Your task to perform on an android device: Open Chrome and go to the settings page Image 0: 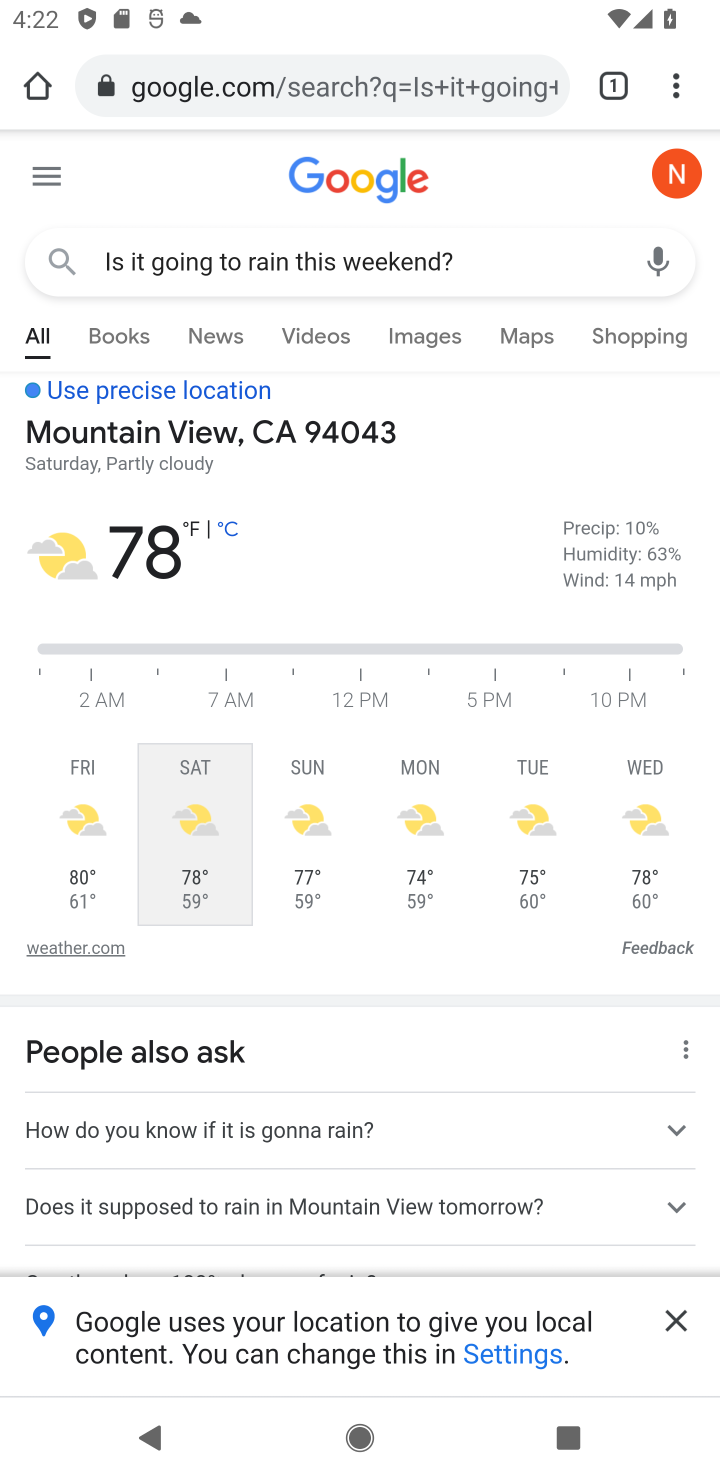
Step 0: click (426, 456)
Your task to perform on an android device: Open Chrome and go to the settings page Image 1: 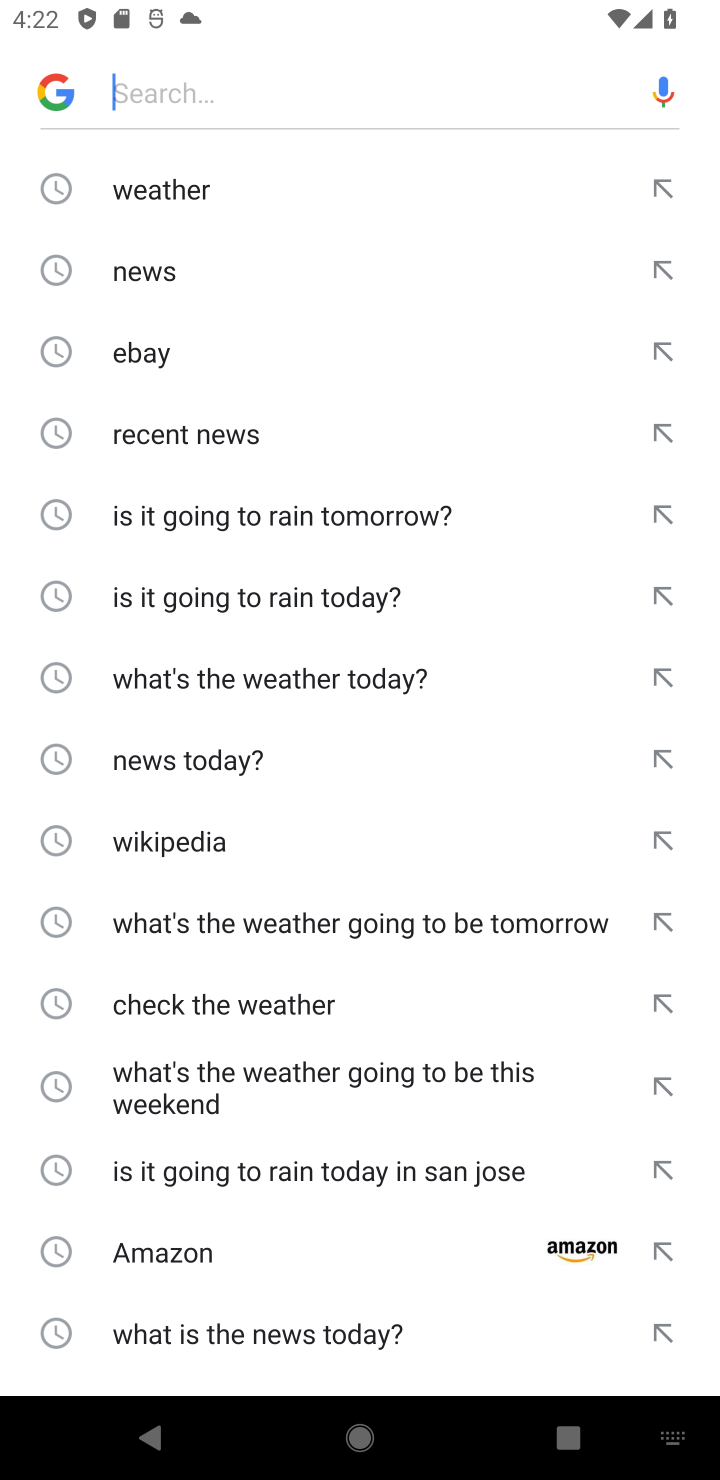
Step 1: press home button
Your task to perform on an android device: Open Chrome and go to the settings page Image 2: 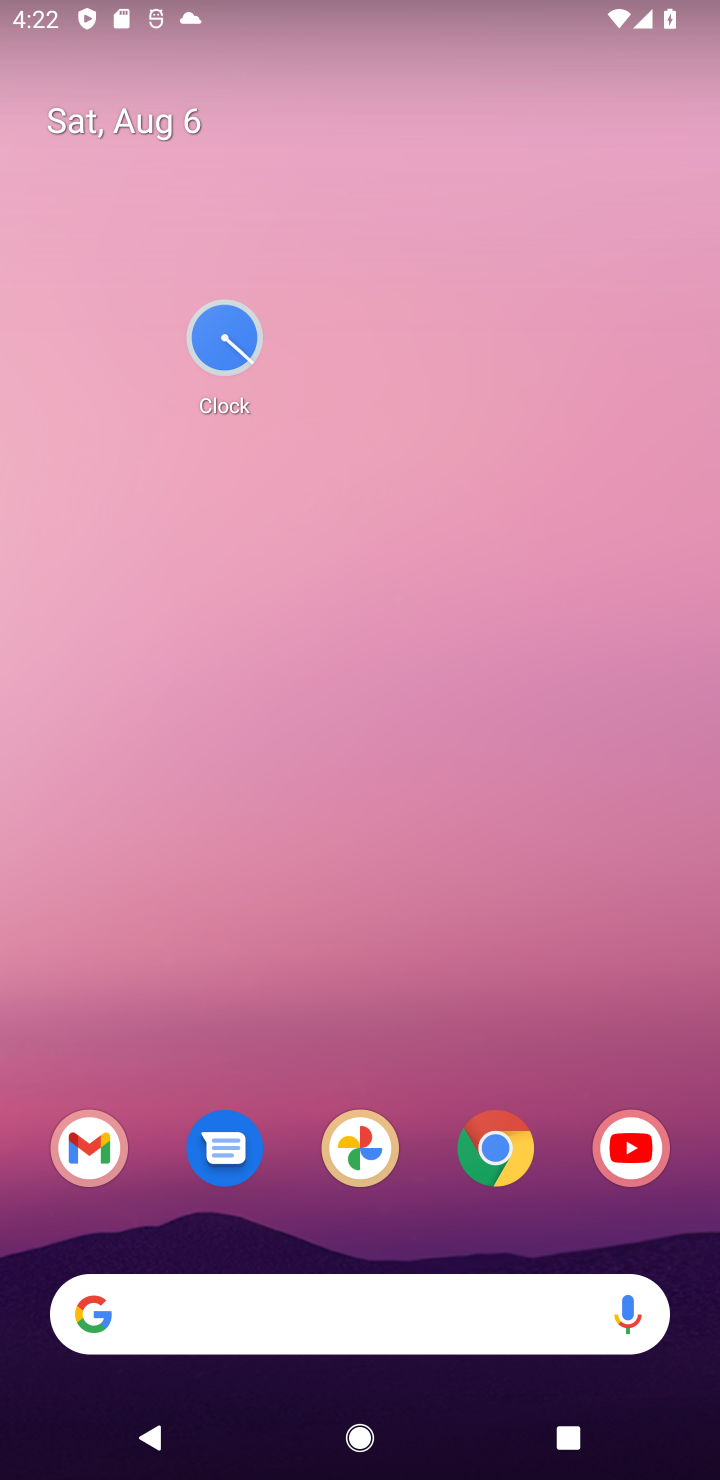
Step 2: click (492, 1153)
Your task to perform on an android device: Open Chrome and go to the settings page Image 3: 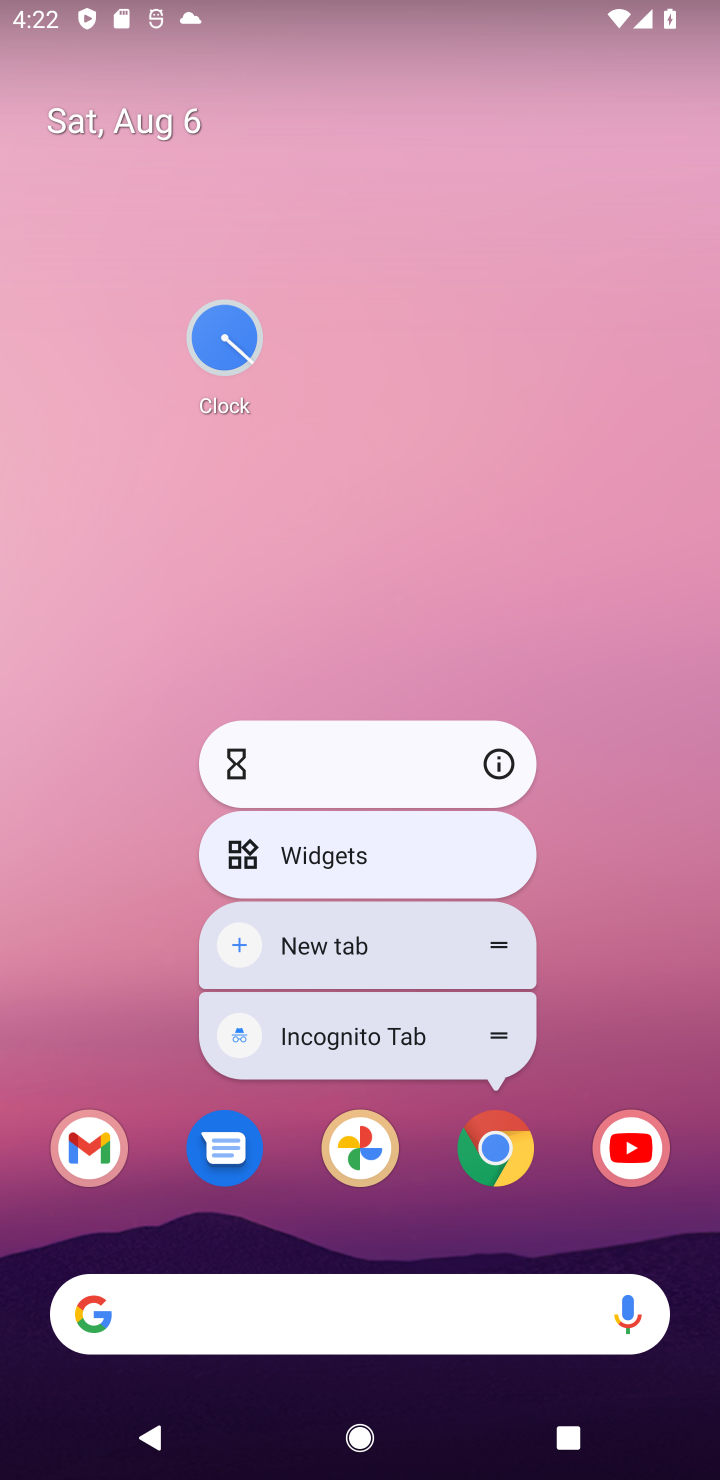
Step 3: click (495, 737)
Your task to perform on an android device: Open Chrome and go to the settings page Image 4: 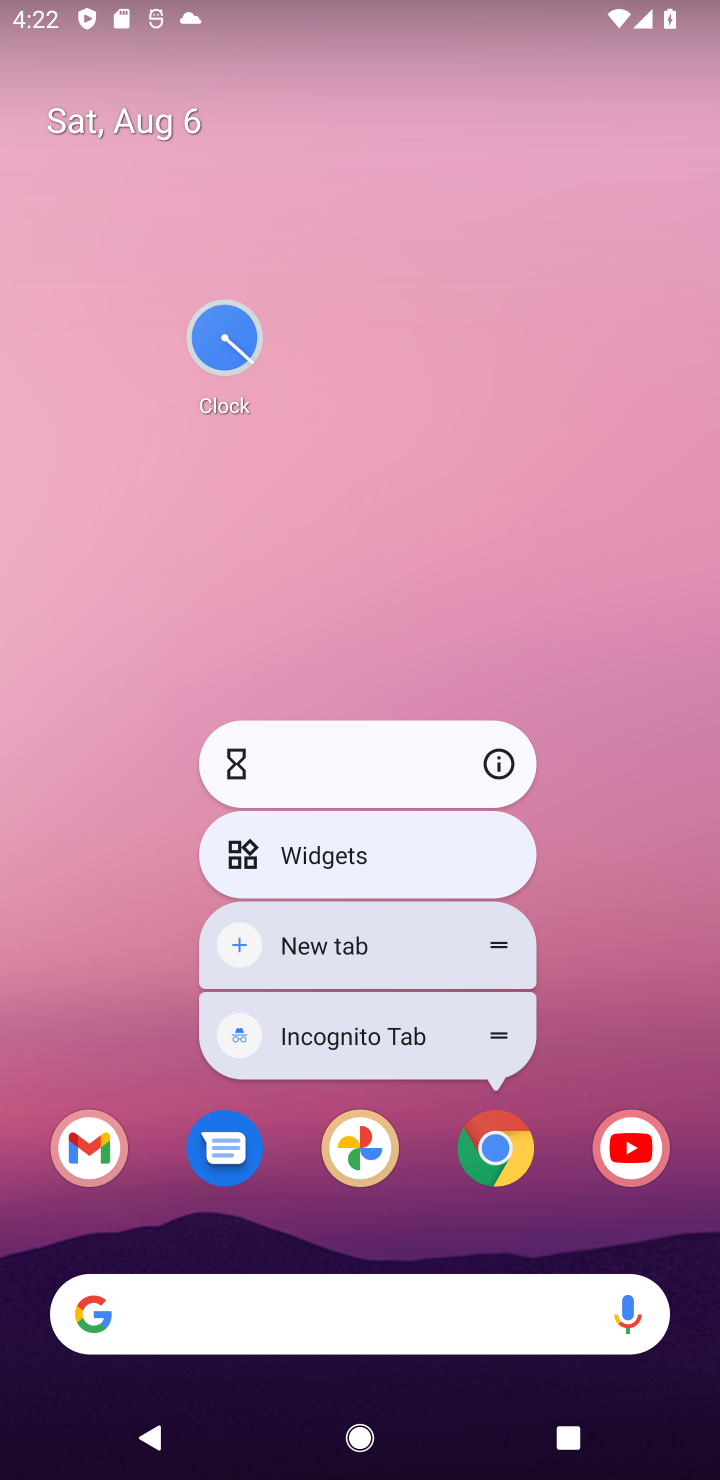
Step 4: click (498, 748)
Your task to perform on an android device: Open Chrome and go to the settings page Image 5: 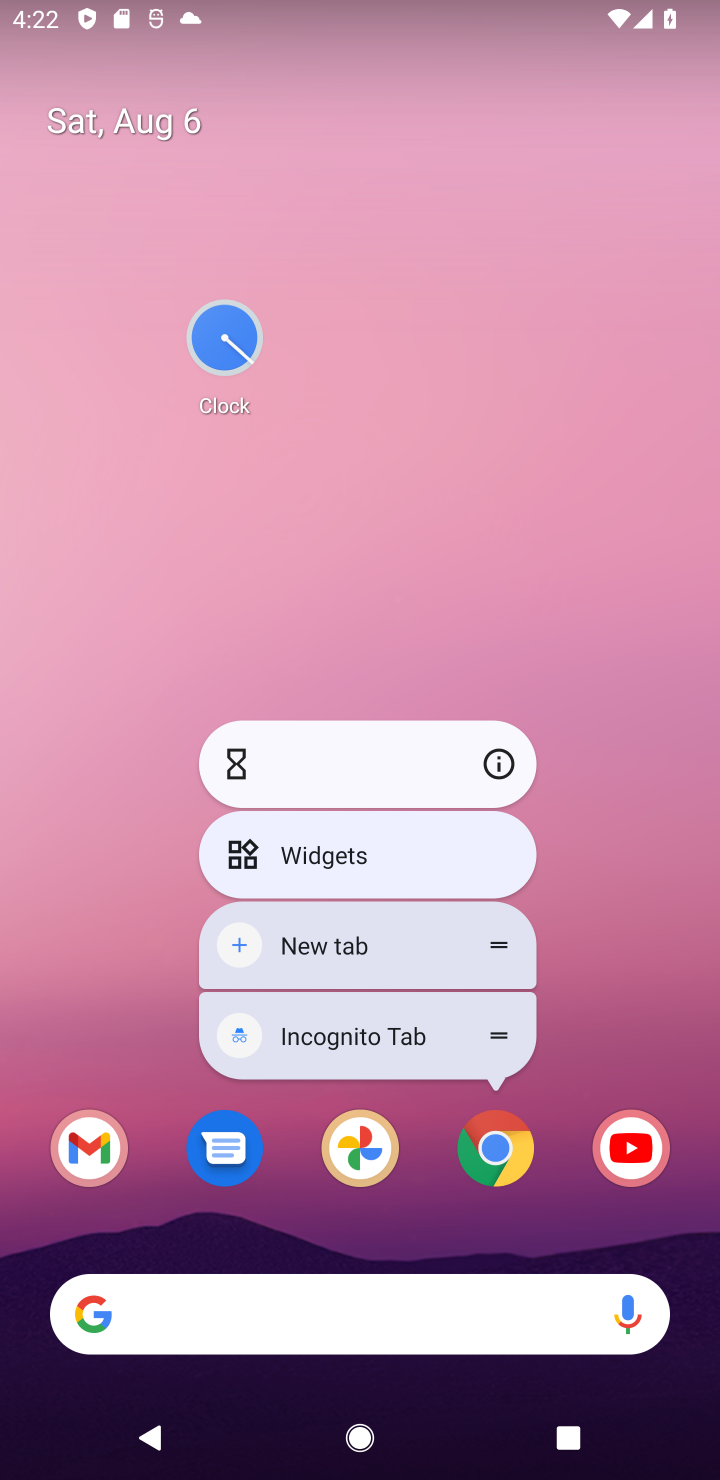
Step 5: click (511, 766)
Your task to perform on an android device: Open Chrome and go to the settings page Image 6: 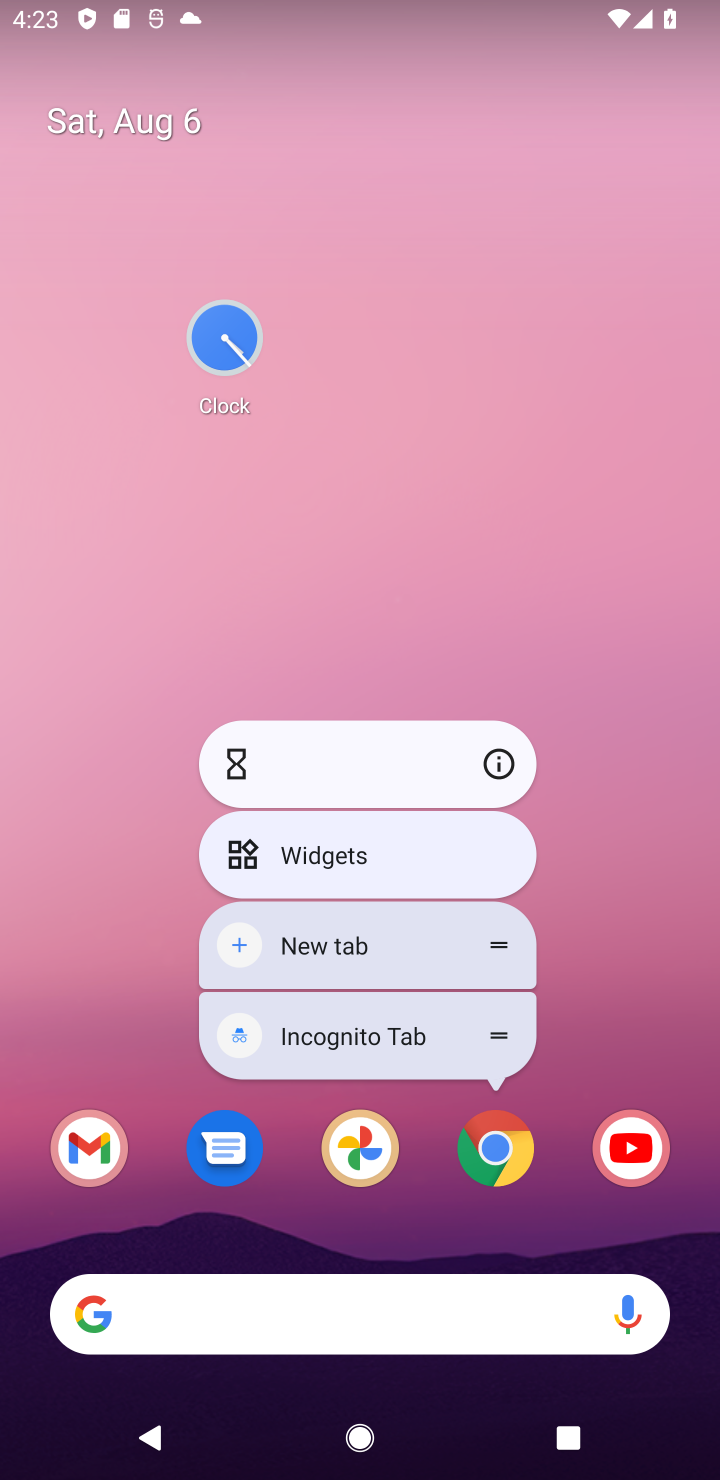
Step 6: click (491, 756)
Your task to perform on an android device: Open Chrome and go to the settings page Image 7: 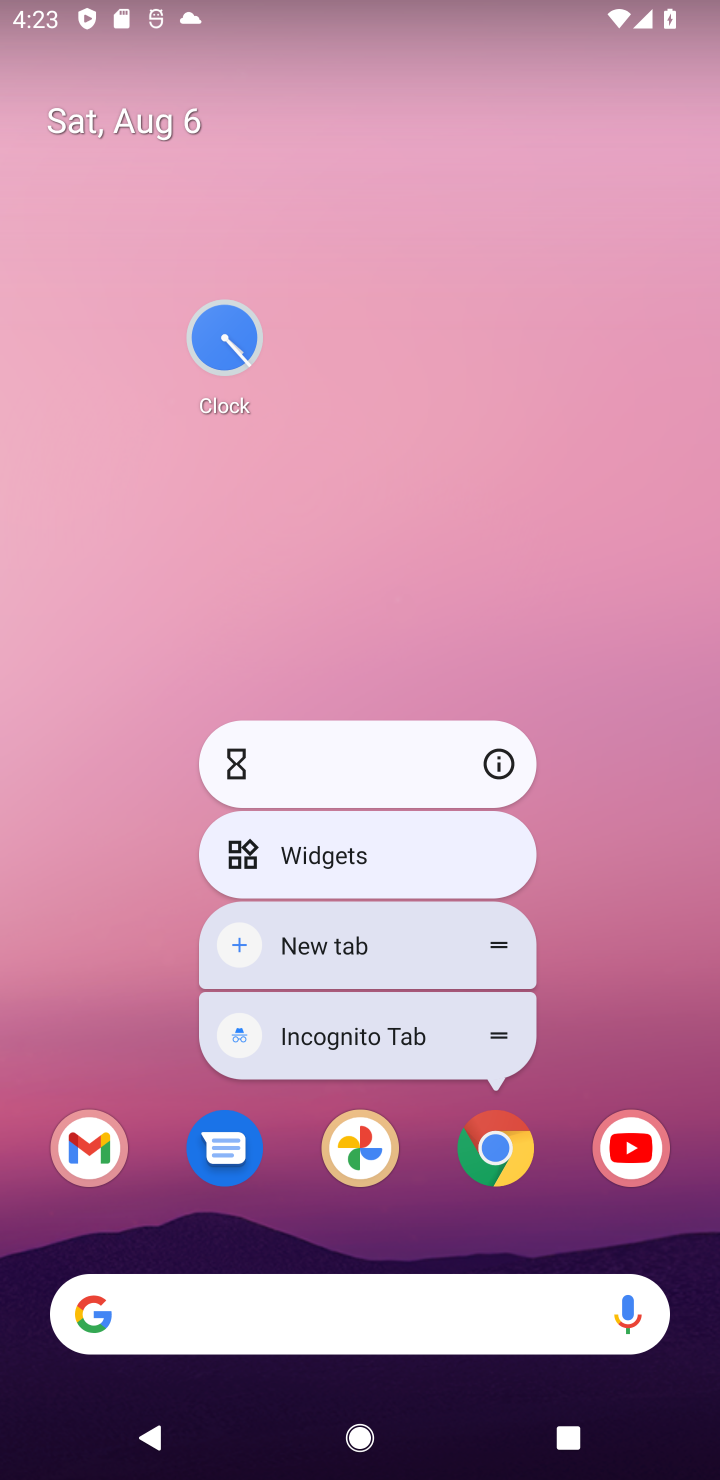
Step 7: click (493, 753)
Your task to perform on an android device: Open Chrome and go to the settings page Image 8: 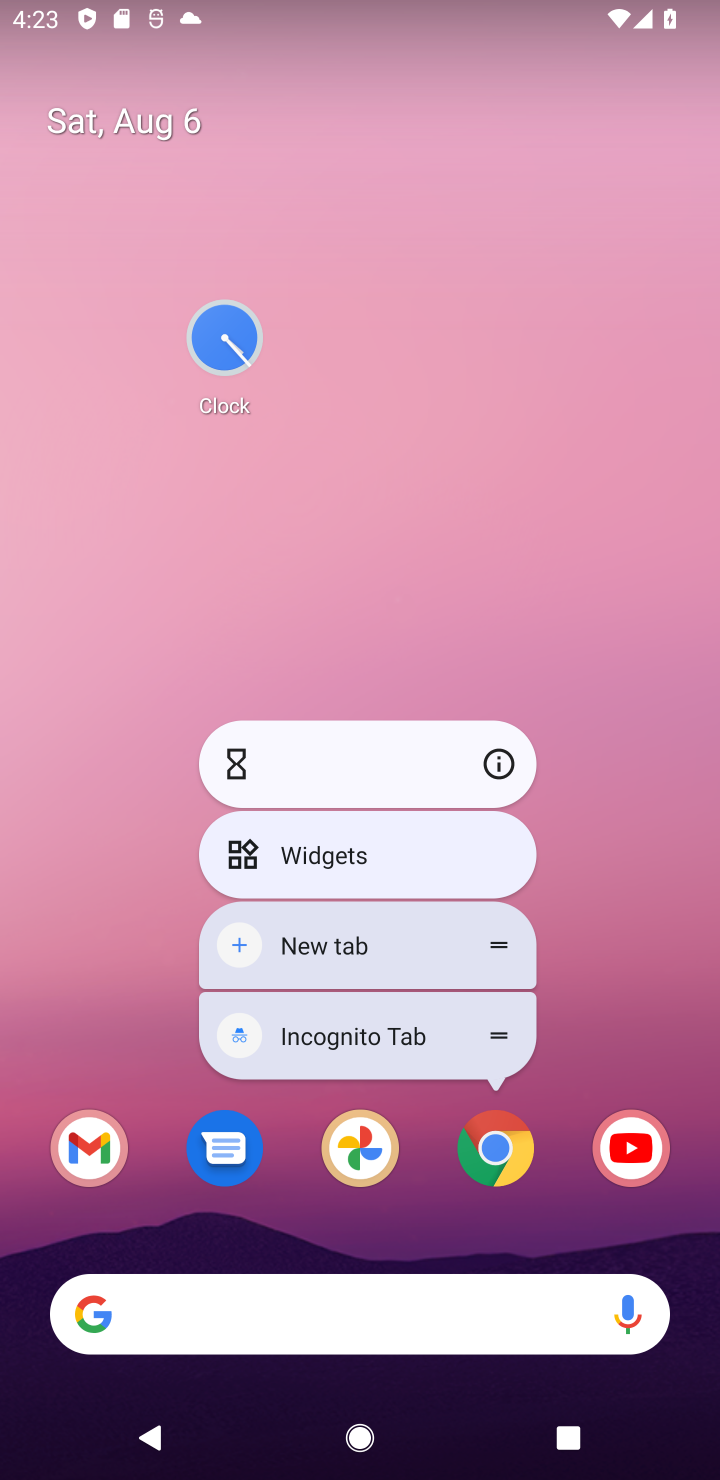
Step 8: click (481, 764)
Your task to perform on an android device: Open Chrome and go to the settings page Image 9: 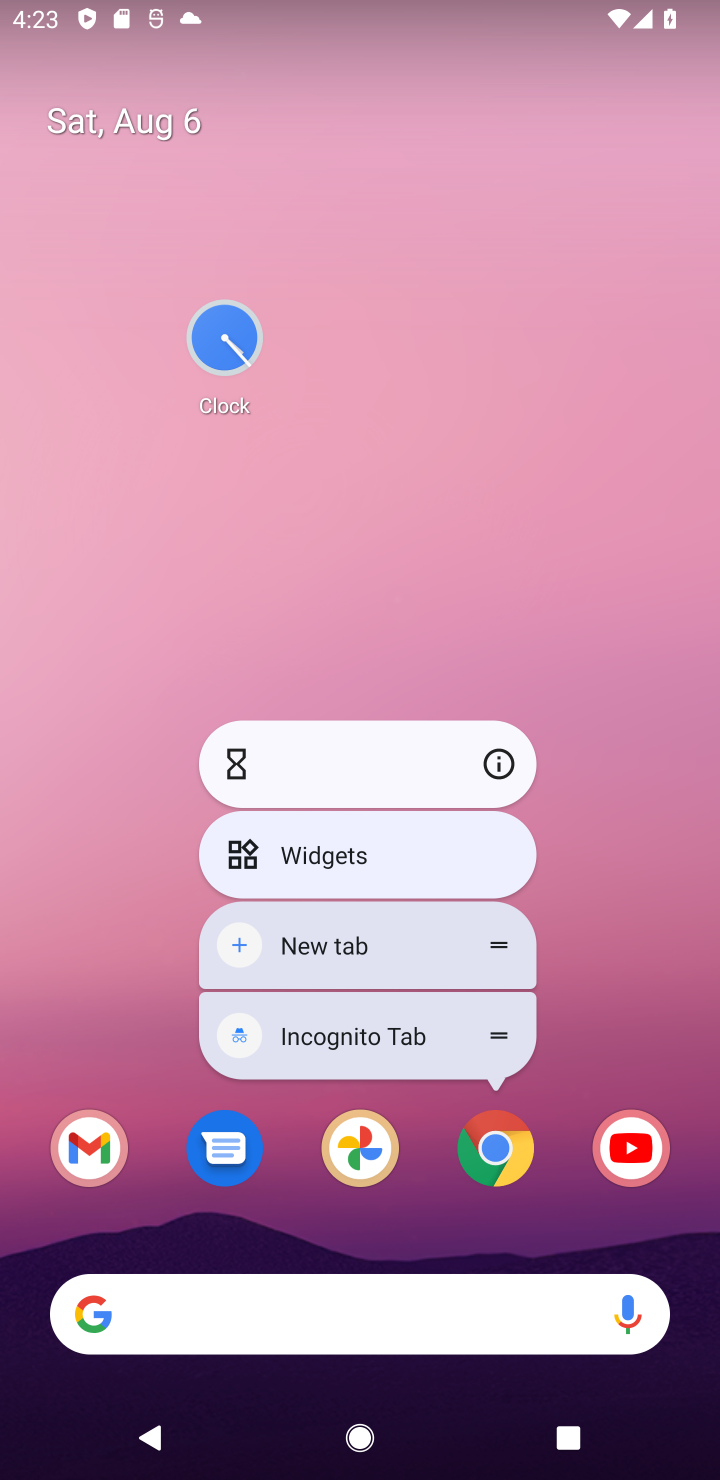
Step 9: click (496, 754)
Your task to perform on an android device: Open Chrome and go to the settings page Image 10: 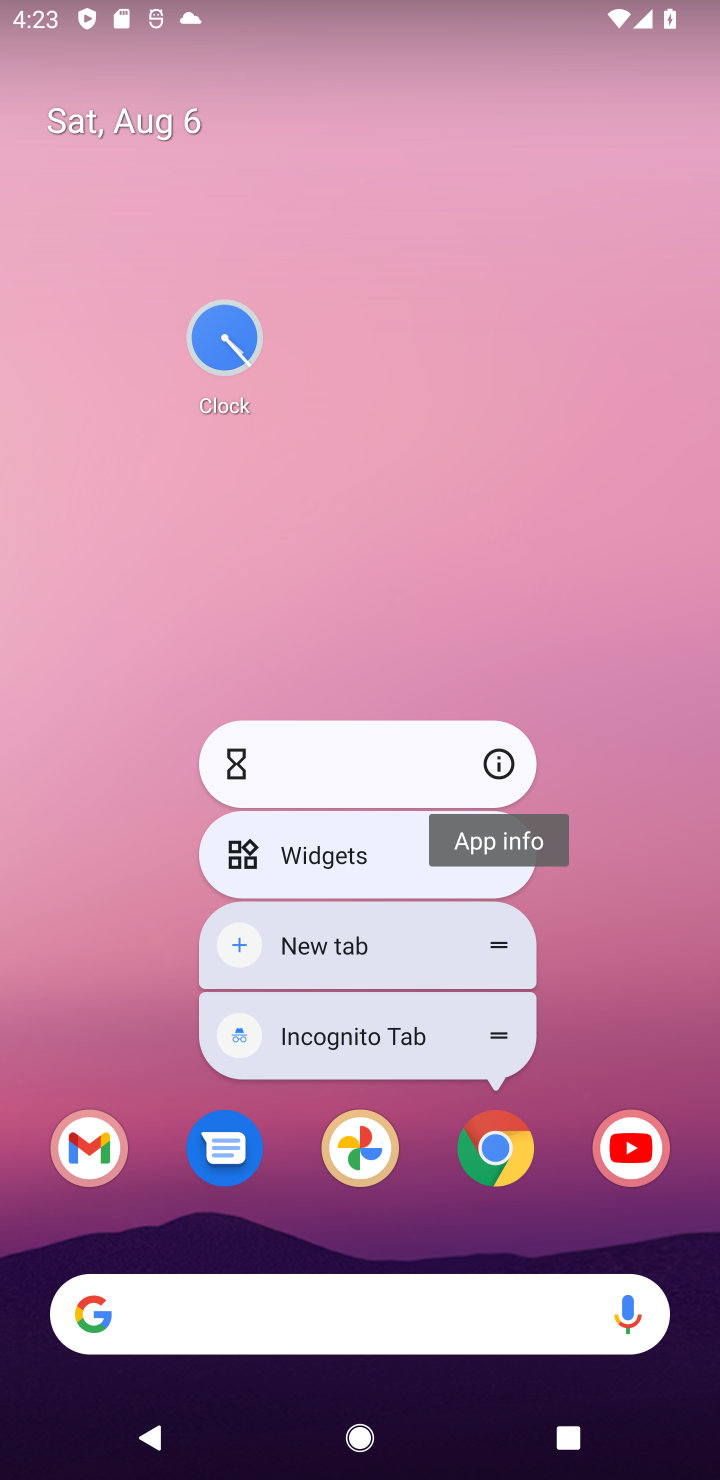
Step 10: click (490, 1141)
Your task to perform on an android device: Open Chrome and go to the settings page Image 11: 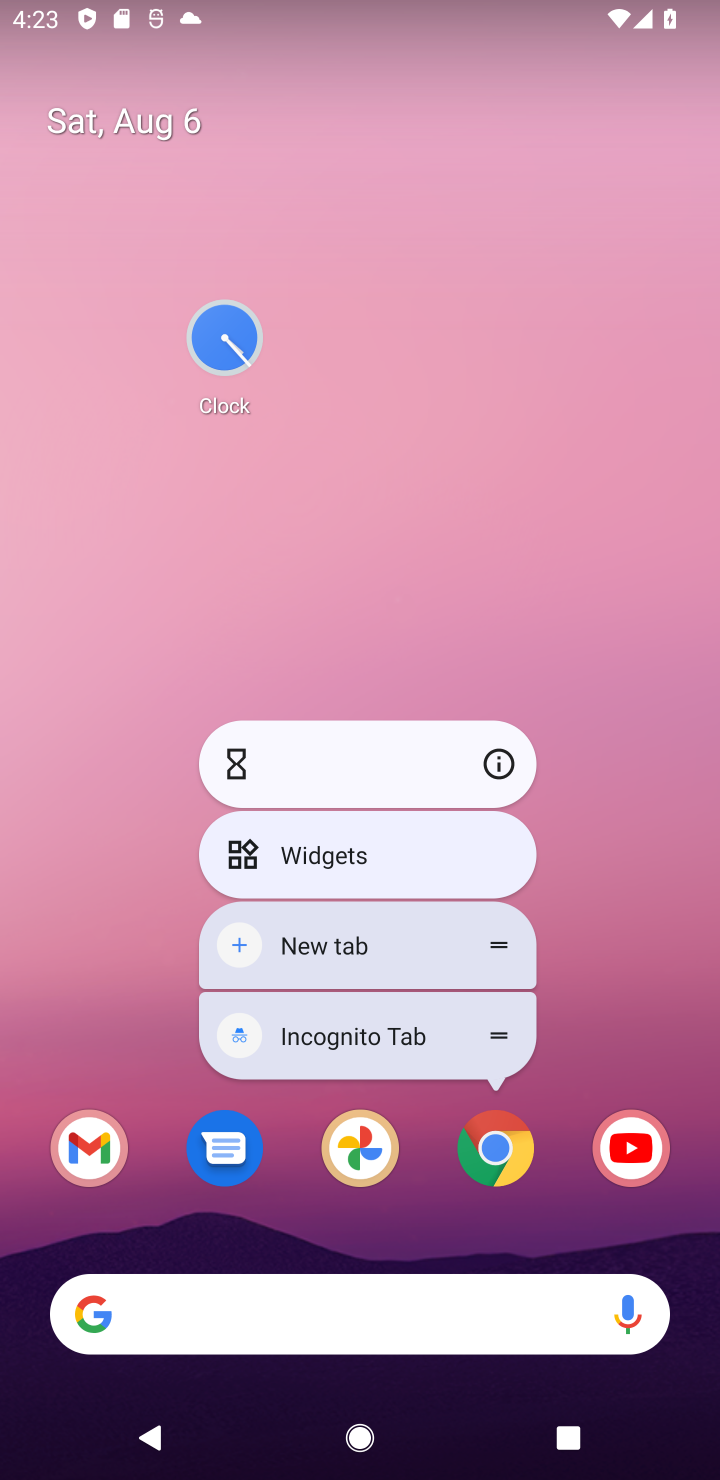
Step 11: click (494, 777)
Your task to perform on an android device: Open Chrome and go to the settings page Image 12: 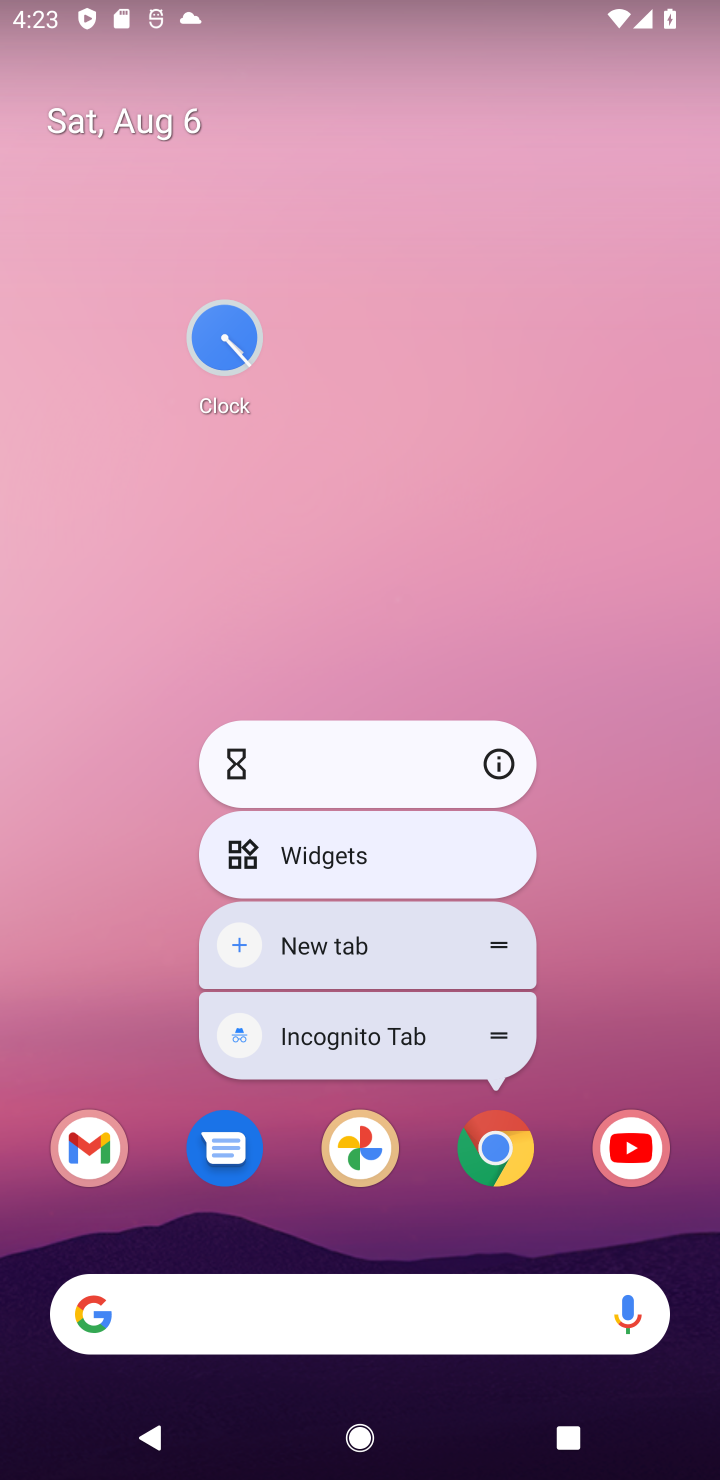
Step 12: click (497, 773)
Your task to perform on an android device: Open Chrome and go to the settings page Image 13: 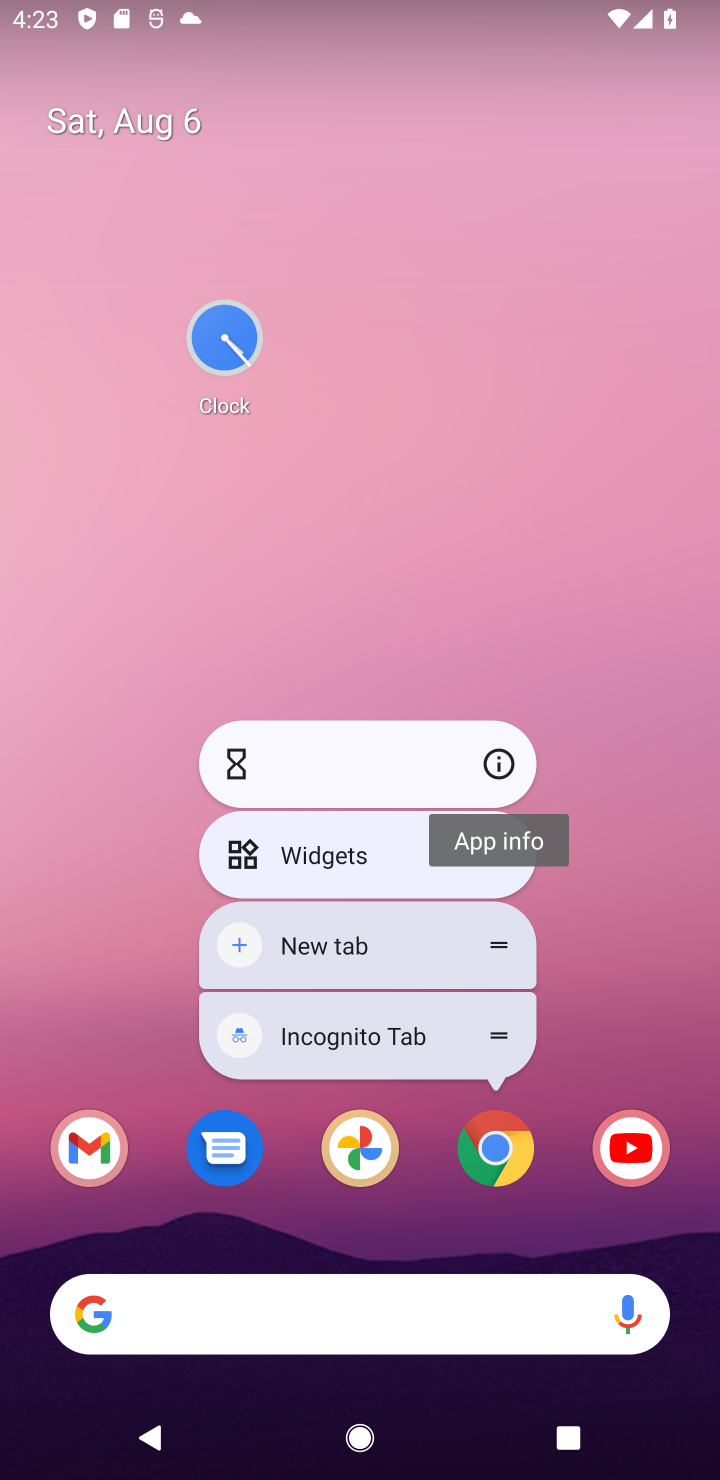
Step 13: click (486, 768)
Your task to perform on an android device: Open Chrome and go to the settings page Image 14: 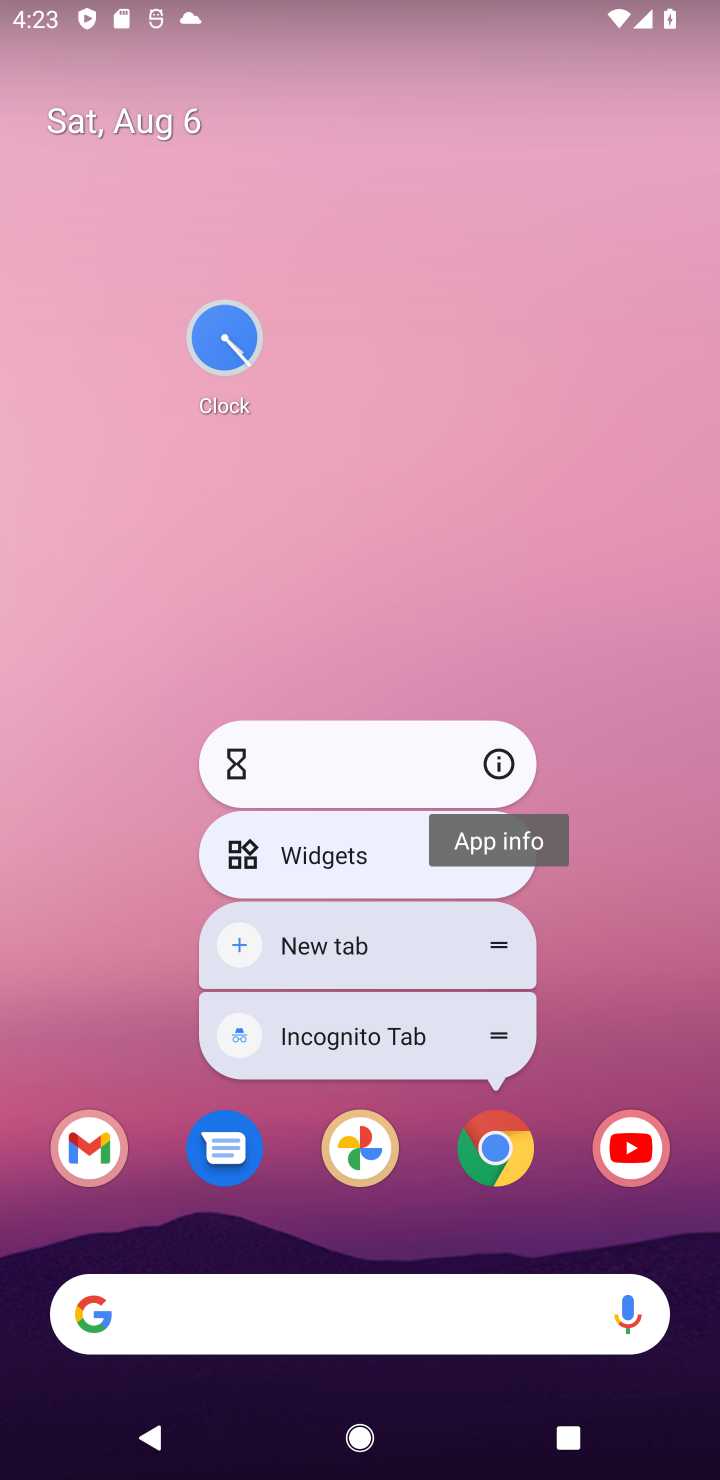
Step 14: click (486, 768)
Your task to perform on an android device: Open Chrome and go to the settings page Image 15: 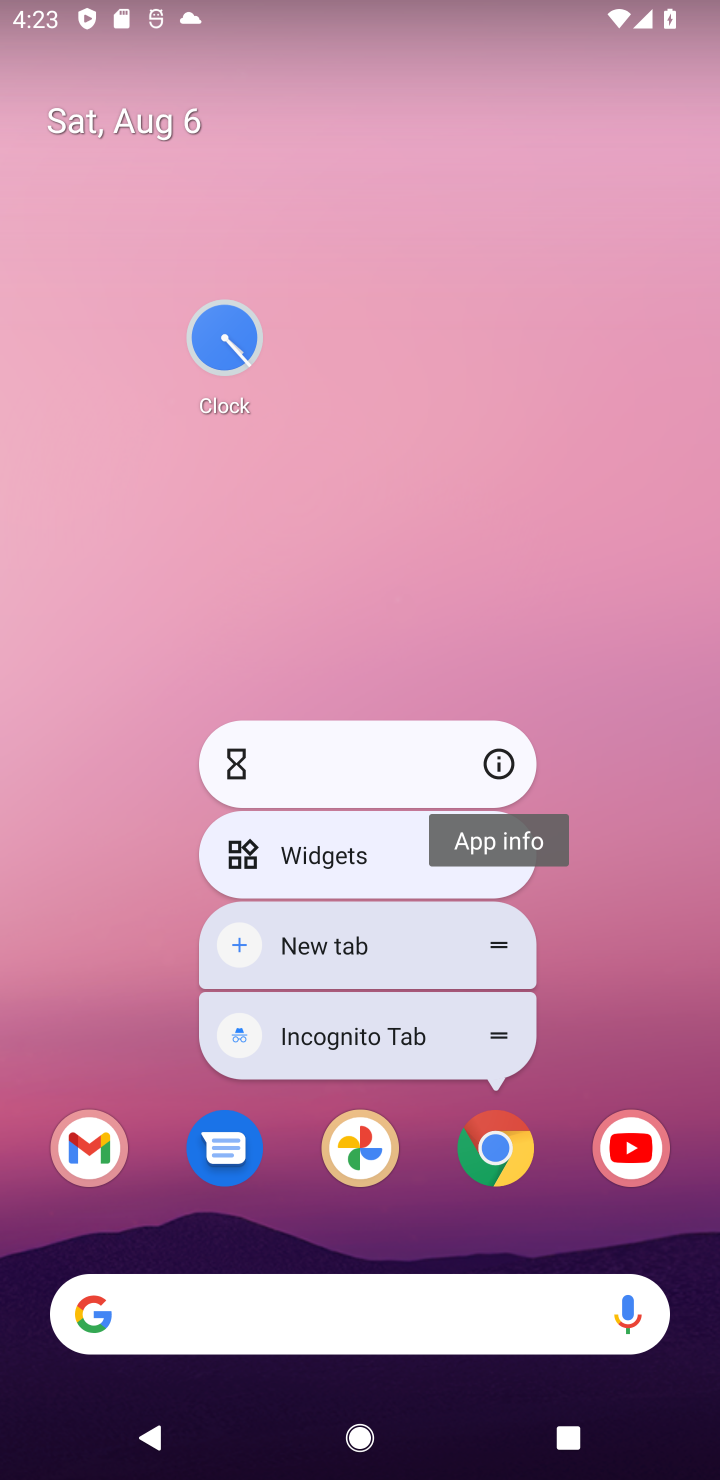
Step 15: click (492, 783)
Your task to perform on an android device: Open Chrome and go to the settings page Image 16: 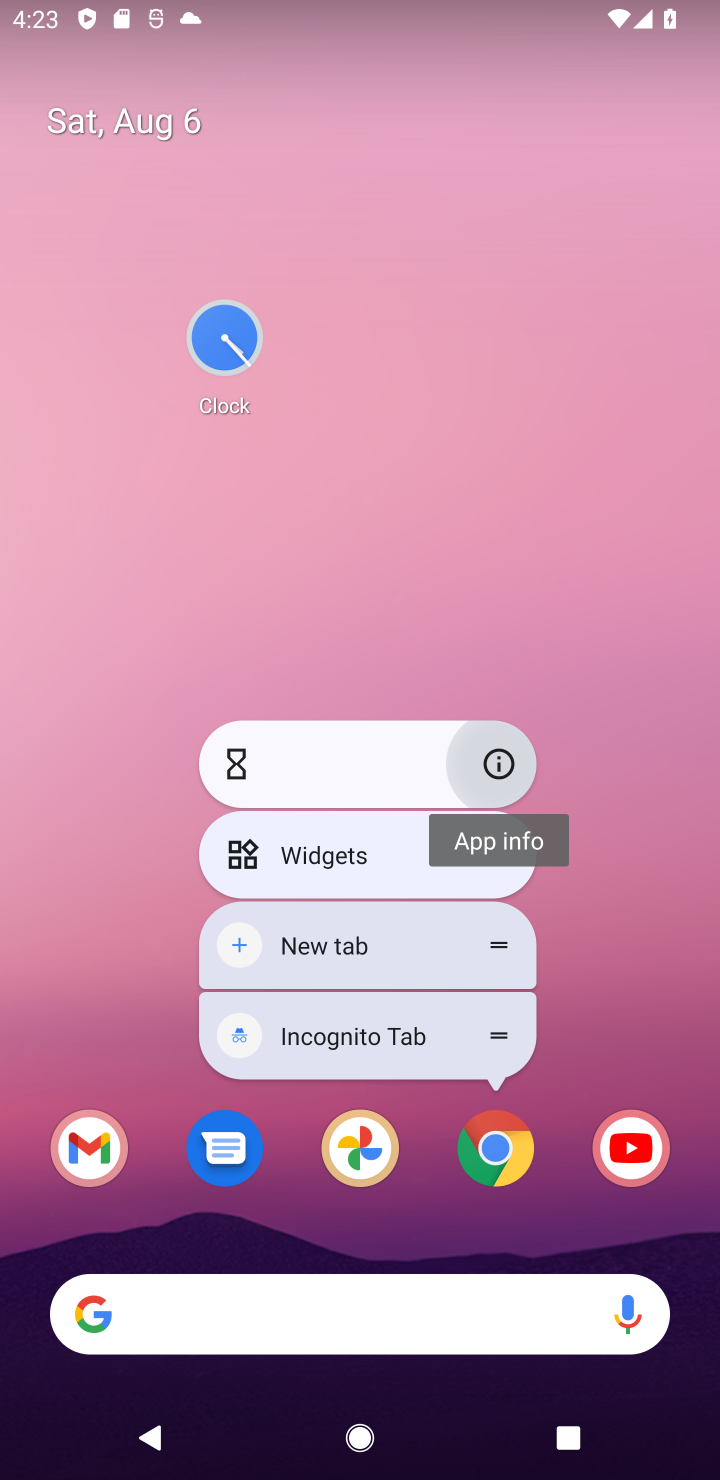
Step 16: click (488, 763)
Your task to perform on an android device: Open Chrome and go to the settings page Image 17: 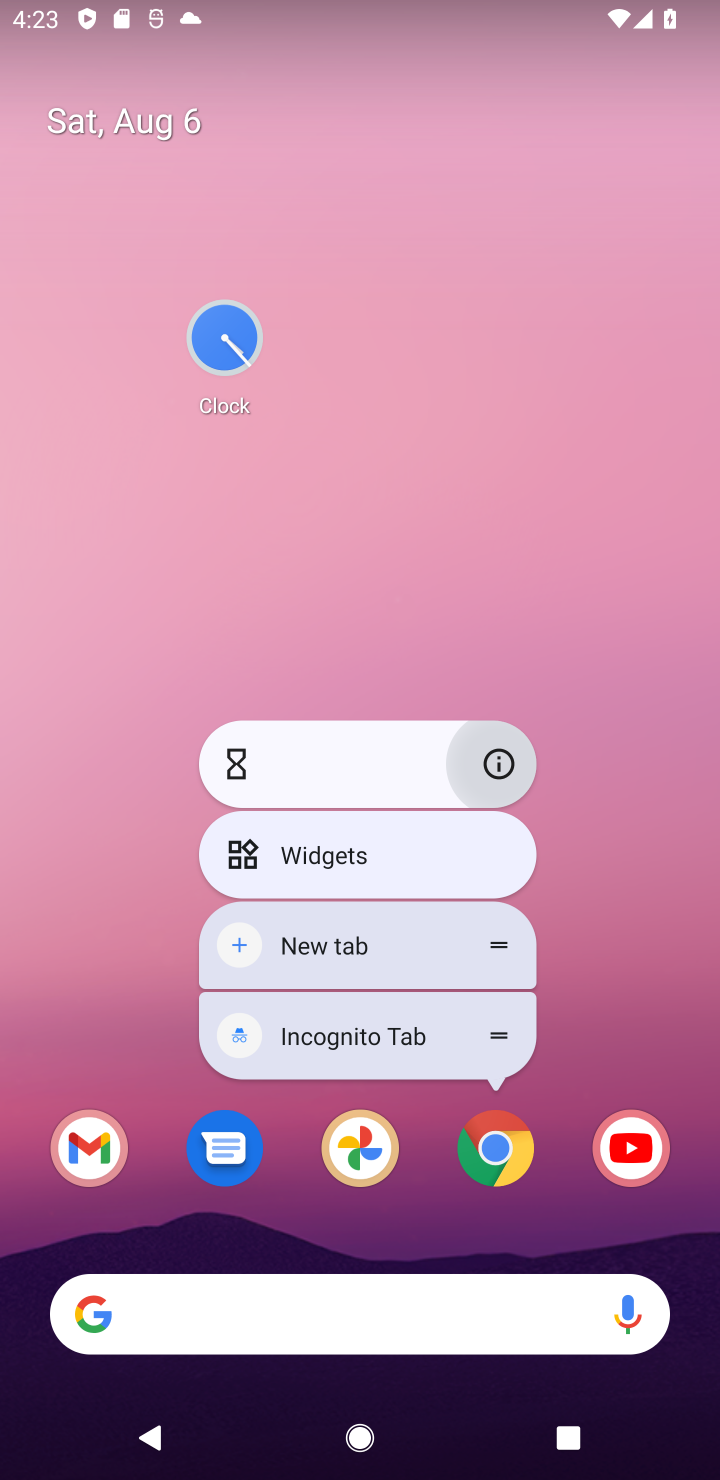
Step 17: click (488, 763)
Your task to perform on an android device: Open Chrome and go to the settings page Image 18: 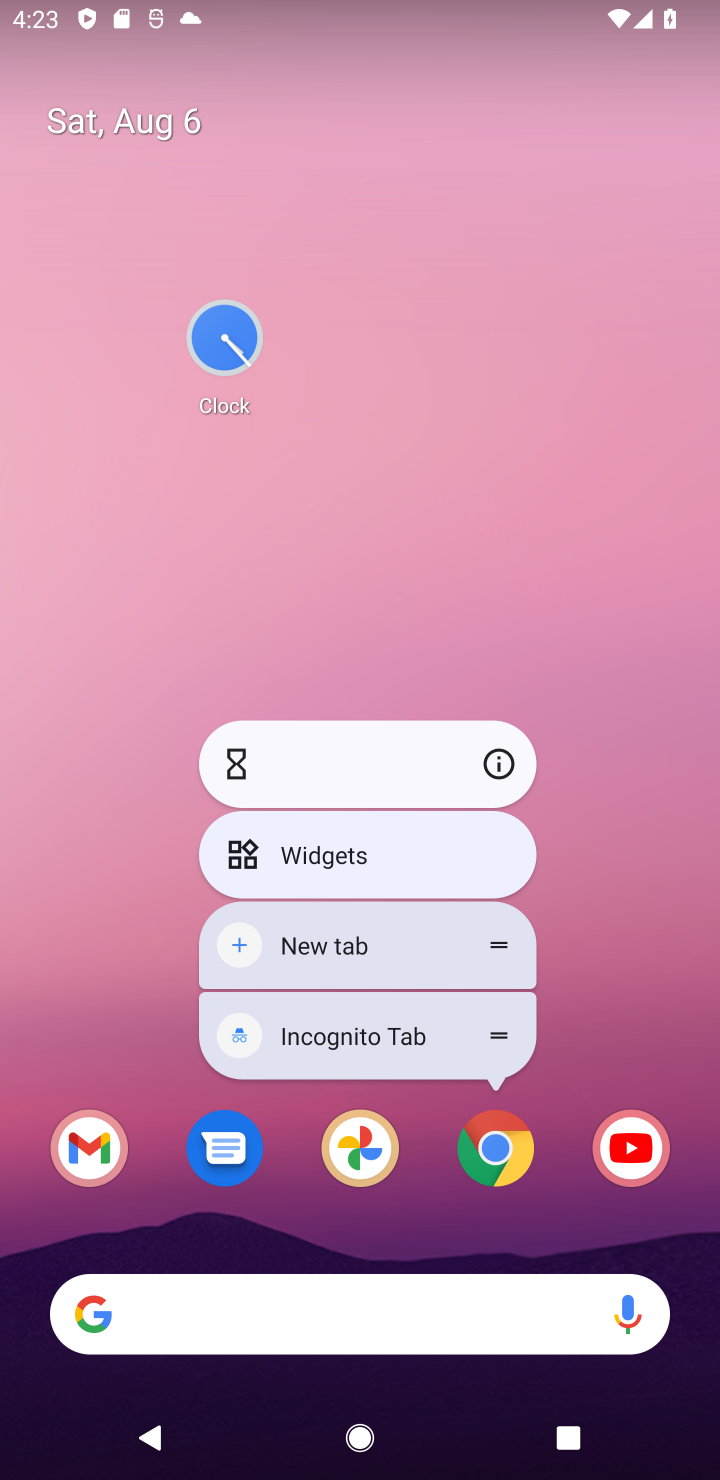
Step 18: click (492, 1141)
Your task to perform on an android device: Open Chrome and go to the settings page Image 19: 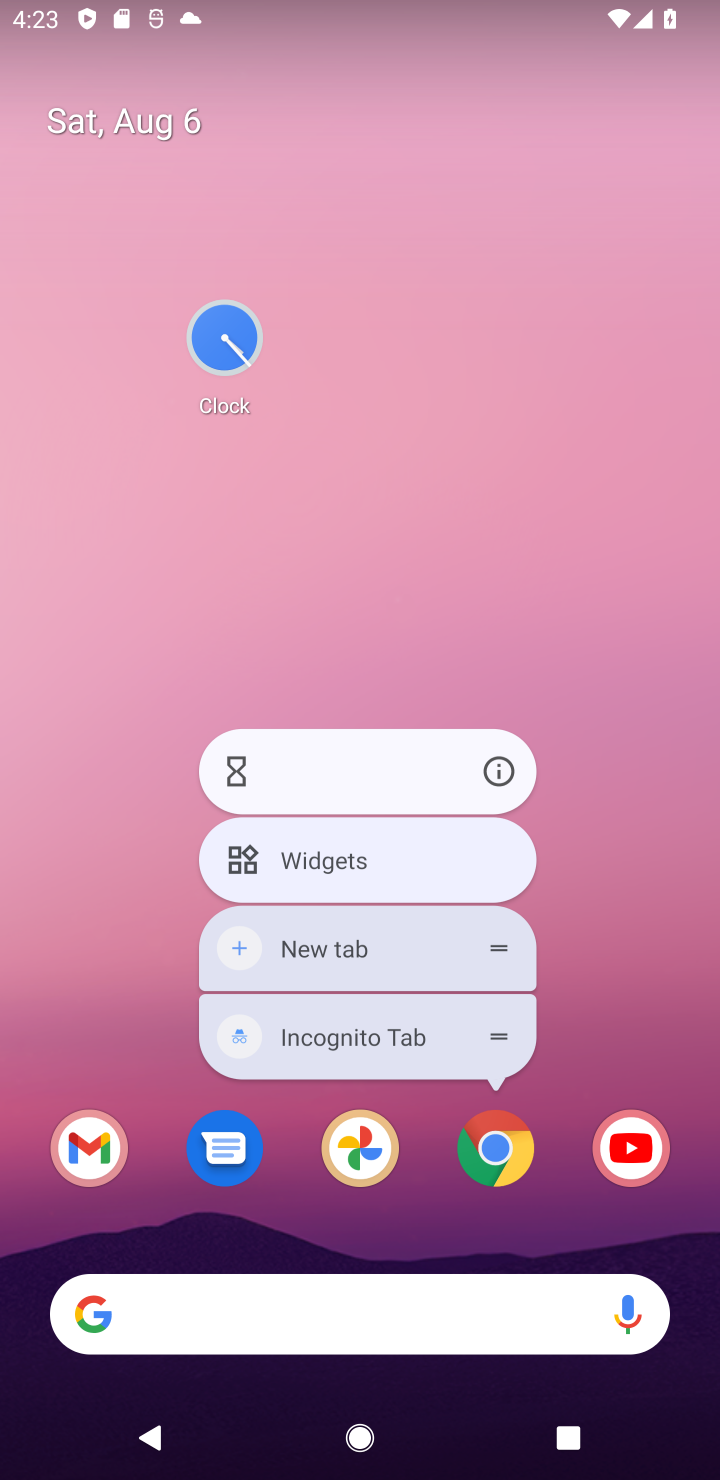
Step 19: click (492, 1141)
Your task to perform on an android device: Open Chrome and go to the settings page Image 20: 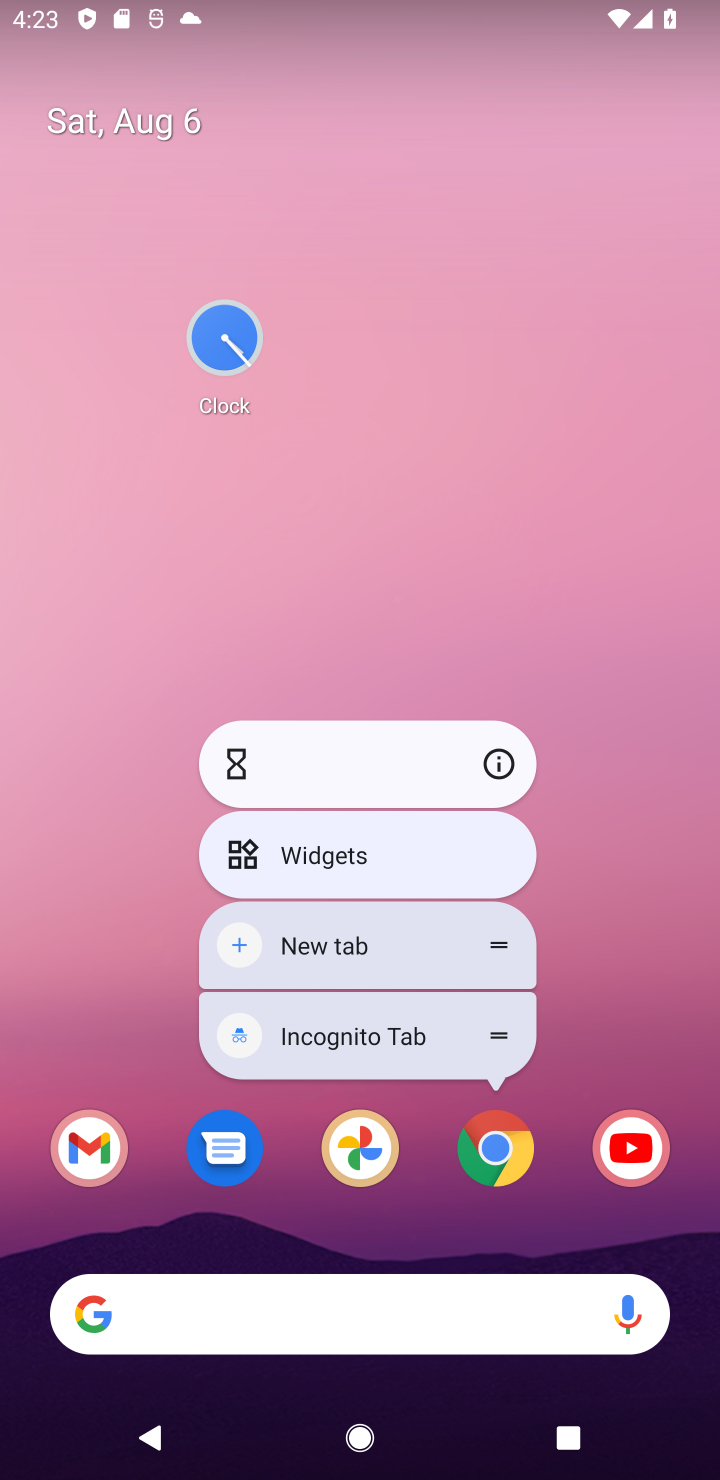
Step 20: click (479, 748)
Your task to perform on an android device: Open Chrome and go to the settings page Image 21: 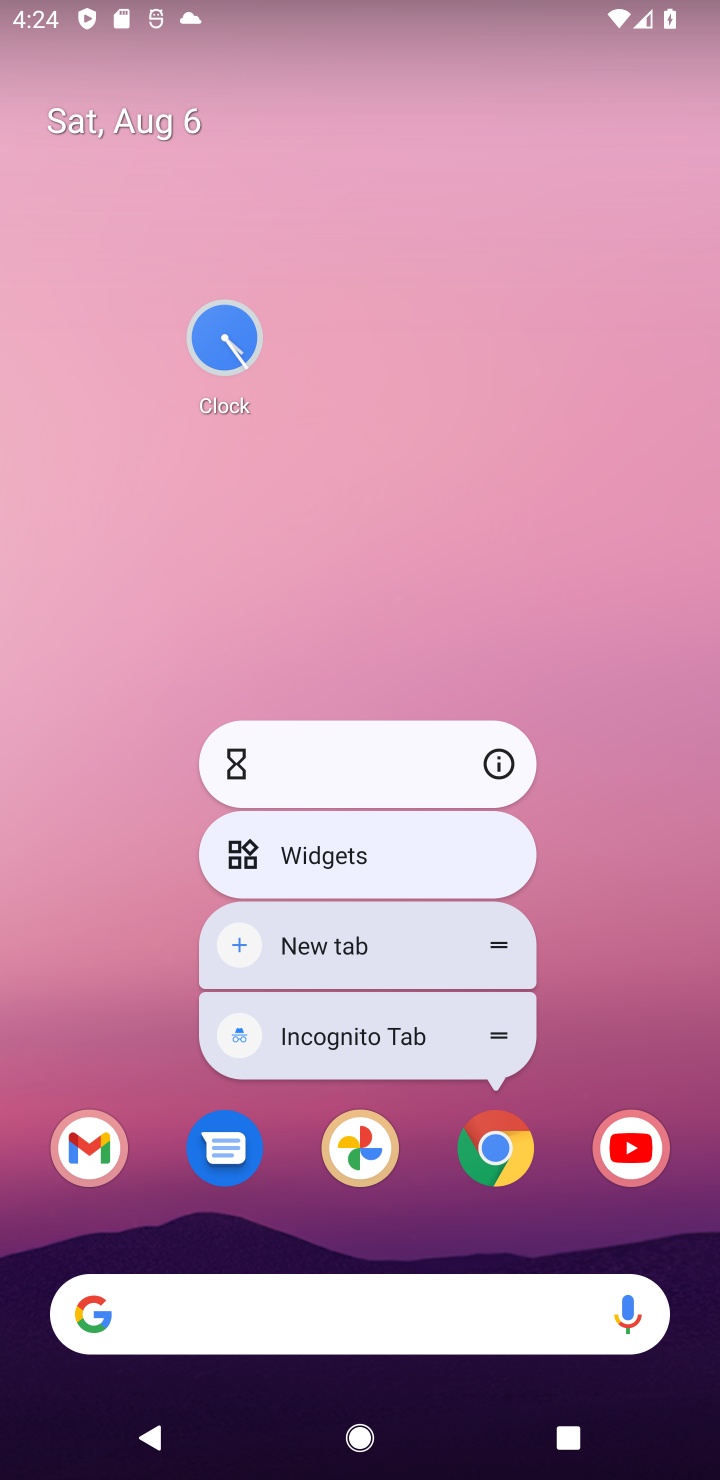
Step 21: click (490, 775)
Your task to perform on an android device: Open Chrome and go to the settings page Image 22: 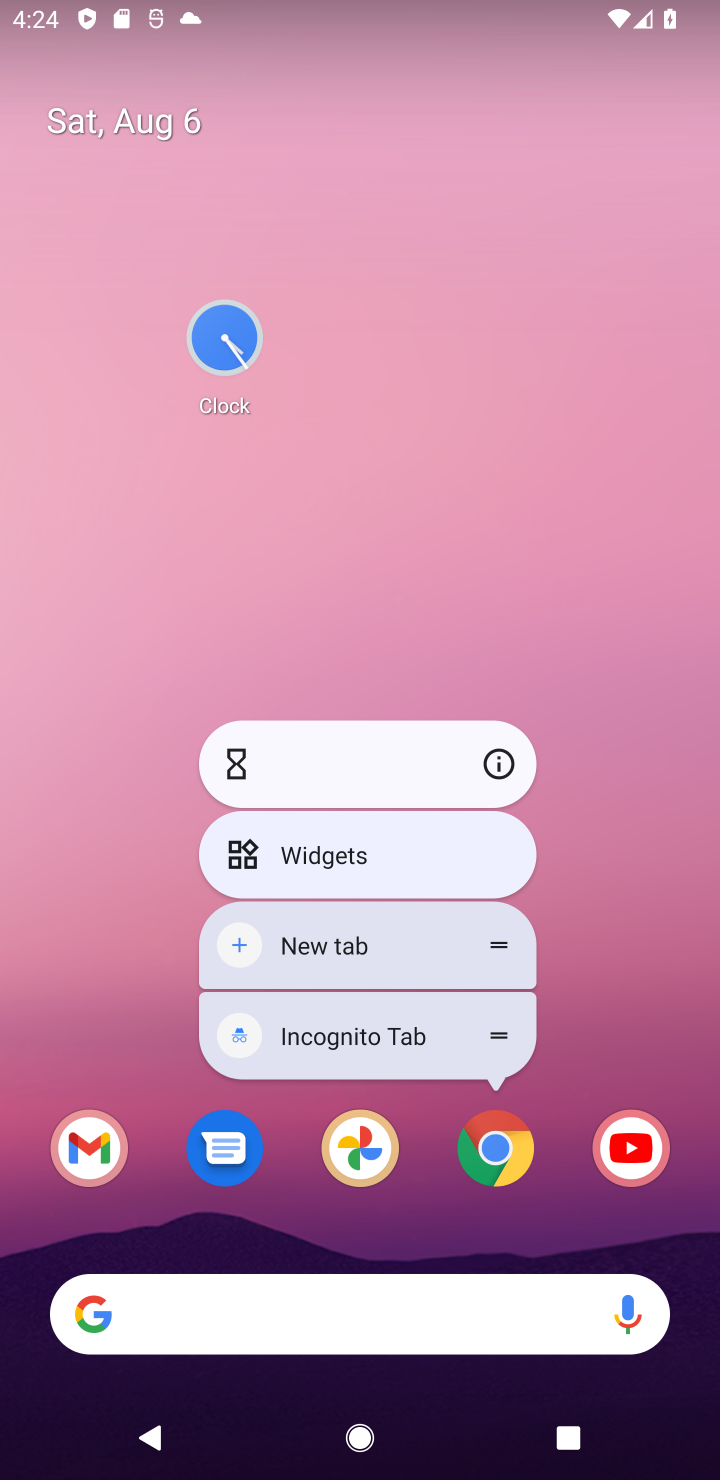
Step 22: click (488, 735)
Your task to perform on an android device: Open Chrome and go to the settings page Image 23: 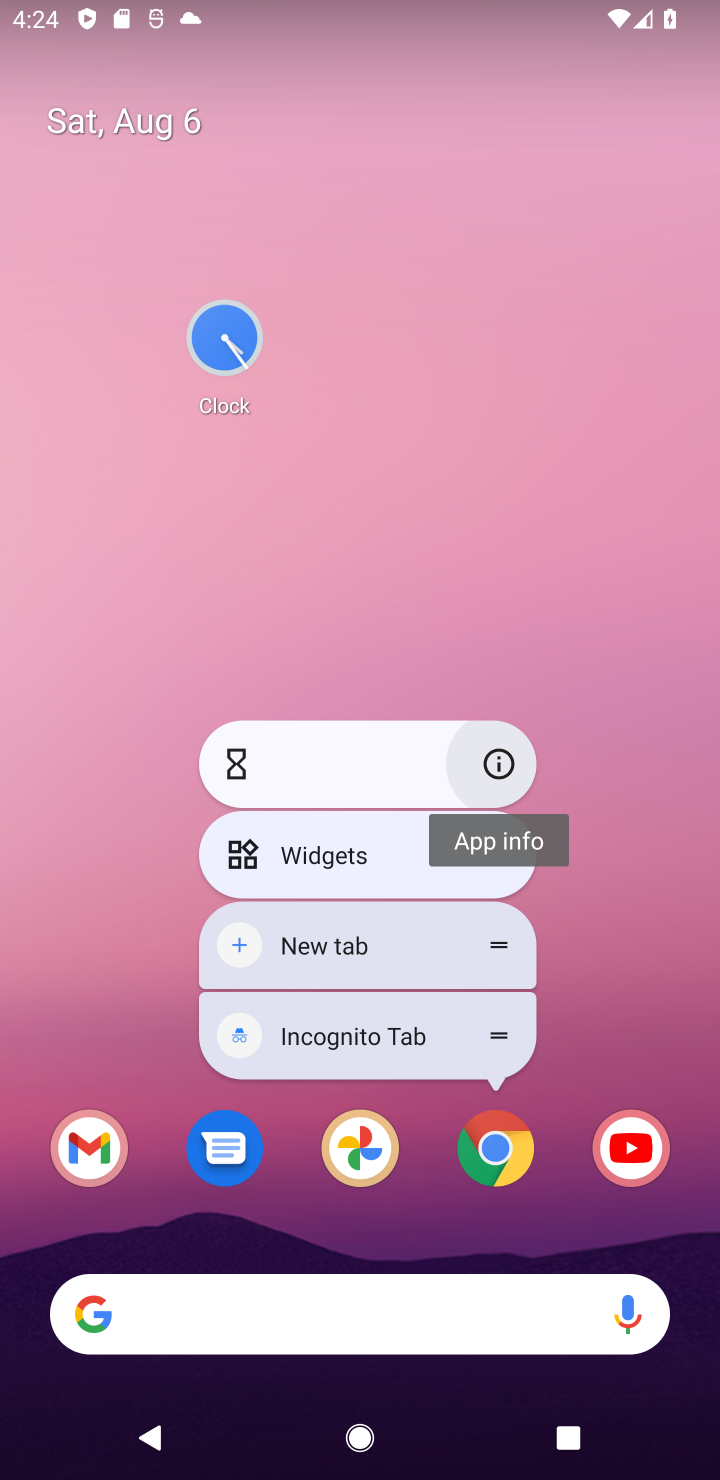
Step 23: click (504, 750)
Your task to perform on an android device: Open Chrome and go to the settings page Image 24: 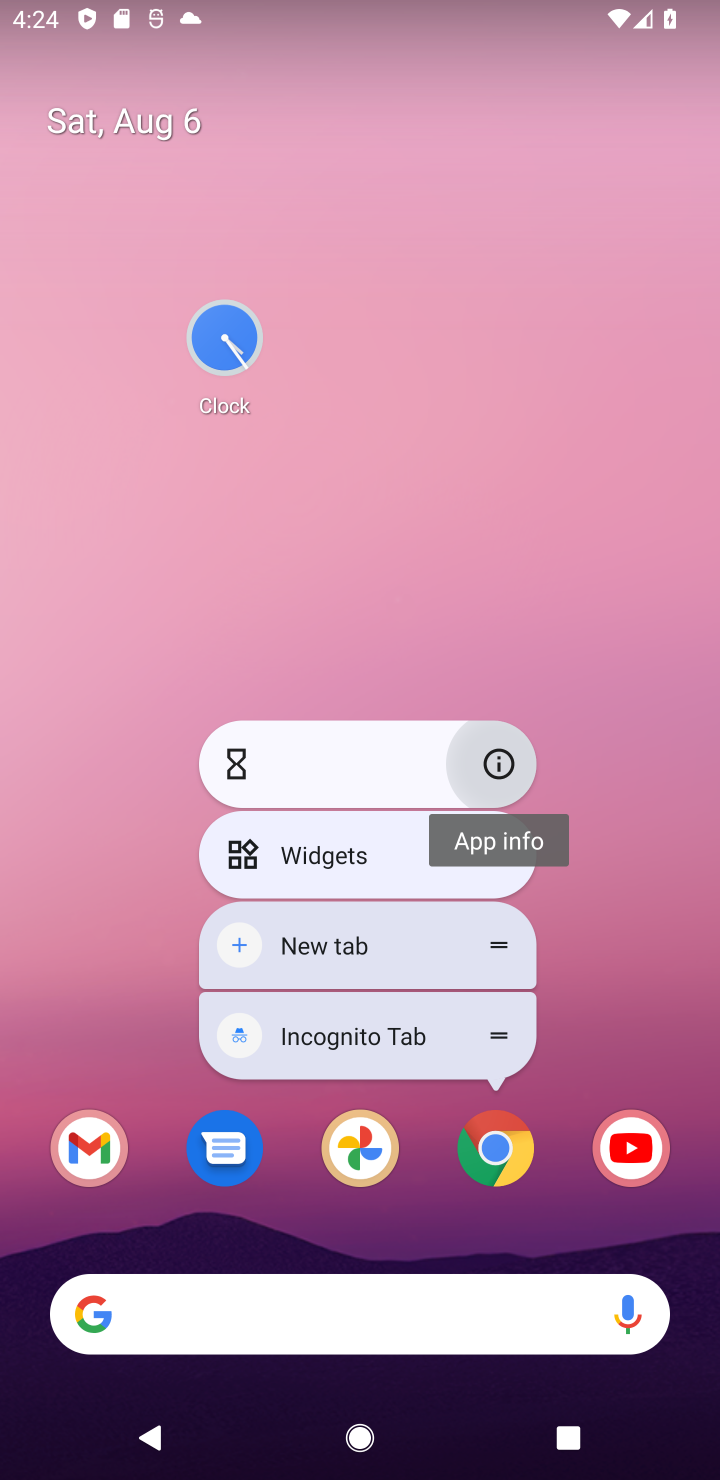
Step 24: click (509, 1162)
Your task to perform on an android device: Open Chrome and go to the settings page Image 25: 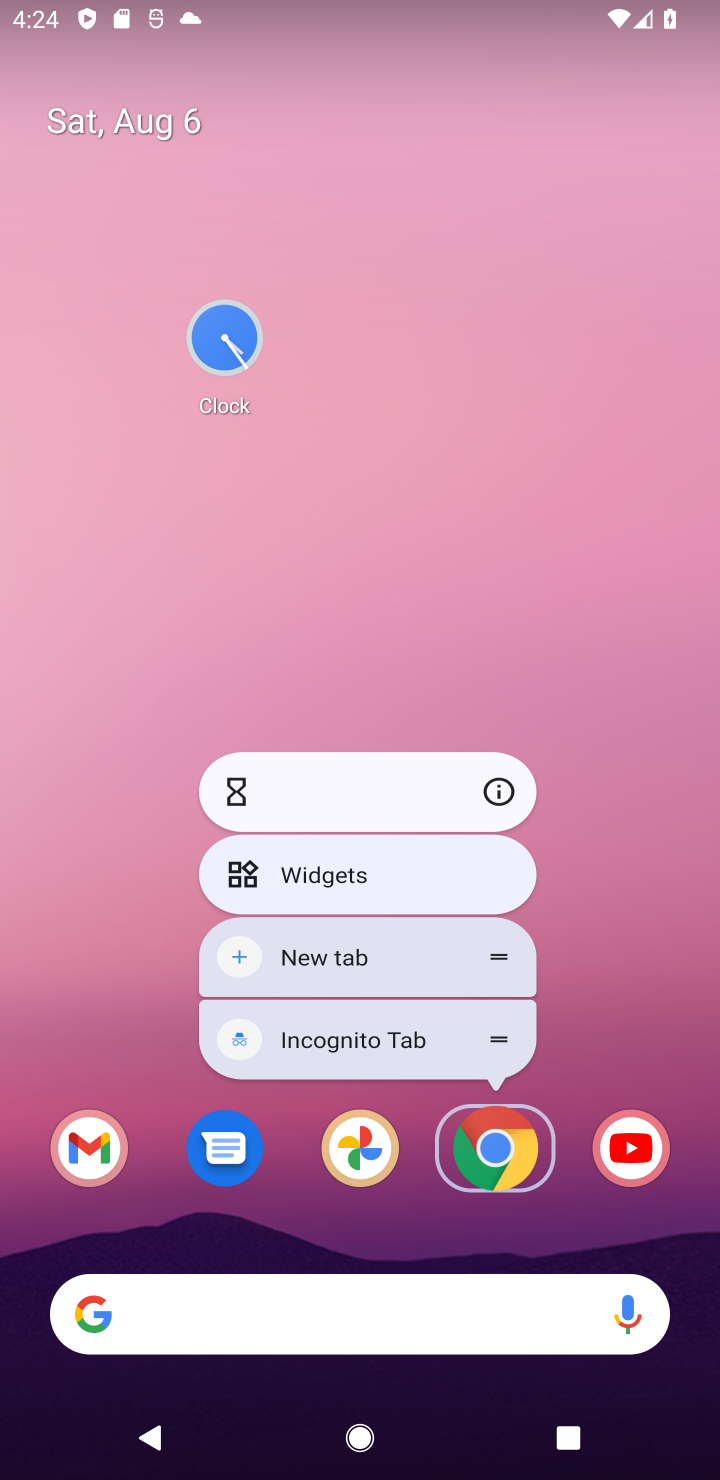
Step 25: click (485, 1150)
Your task to perform on an android device: Open Chrome and go to the settings page Image 26: 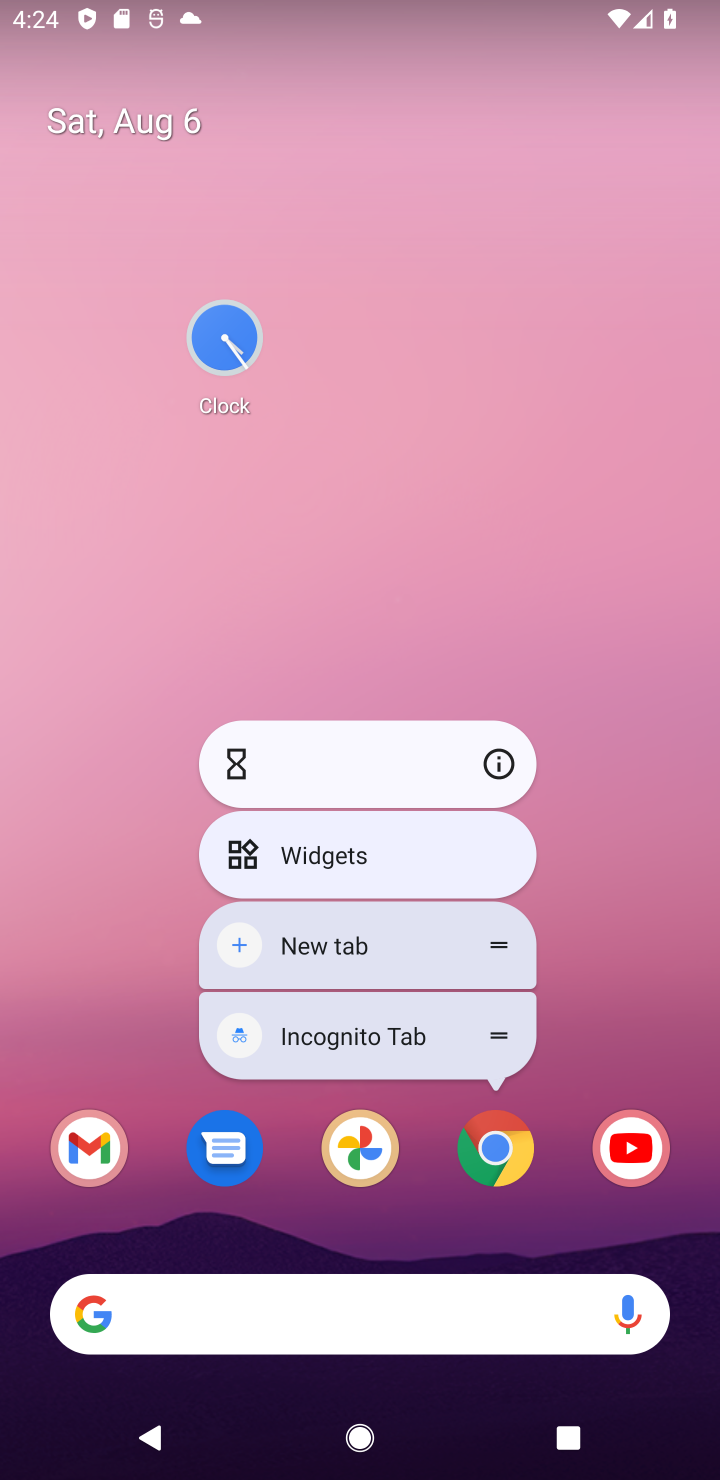
Step 26: click (483, 1137)
Your task to perform on an android device: Open Chrome and go to the settings page Image 27: 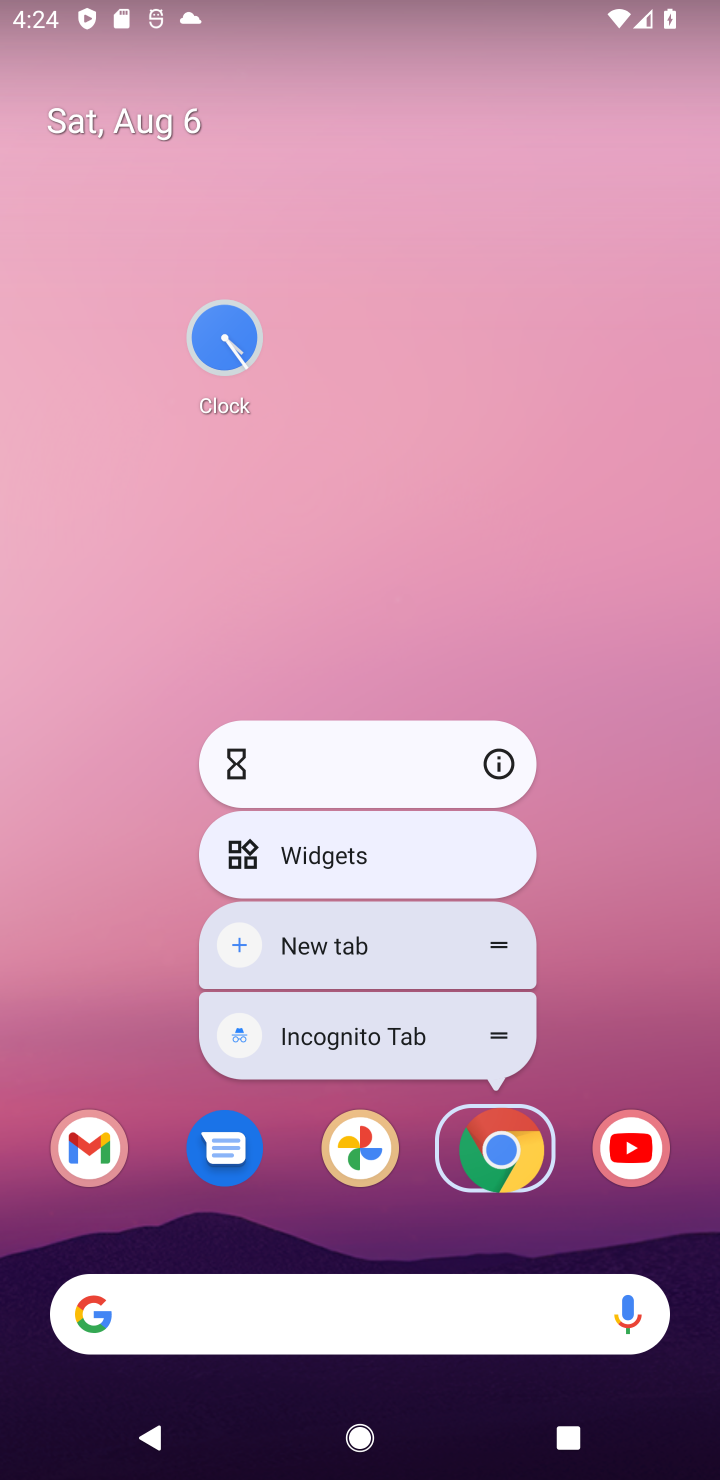
Step 27: click (489, 1139)
Your task to perform on an android device: Open Chrome and go to the settings page Image 28: 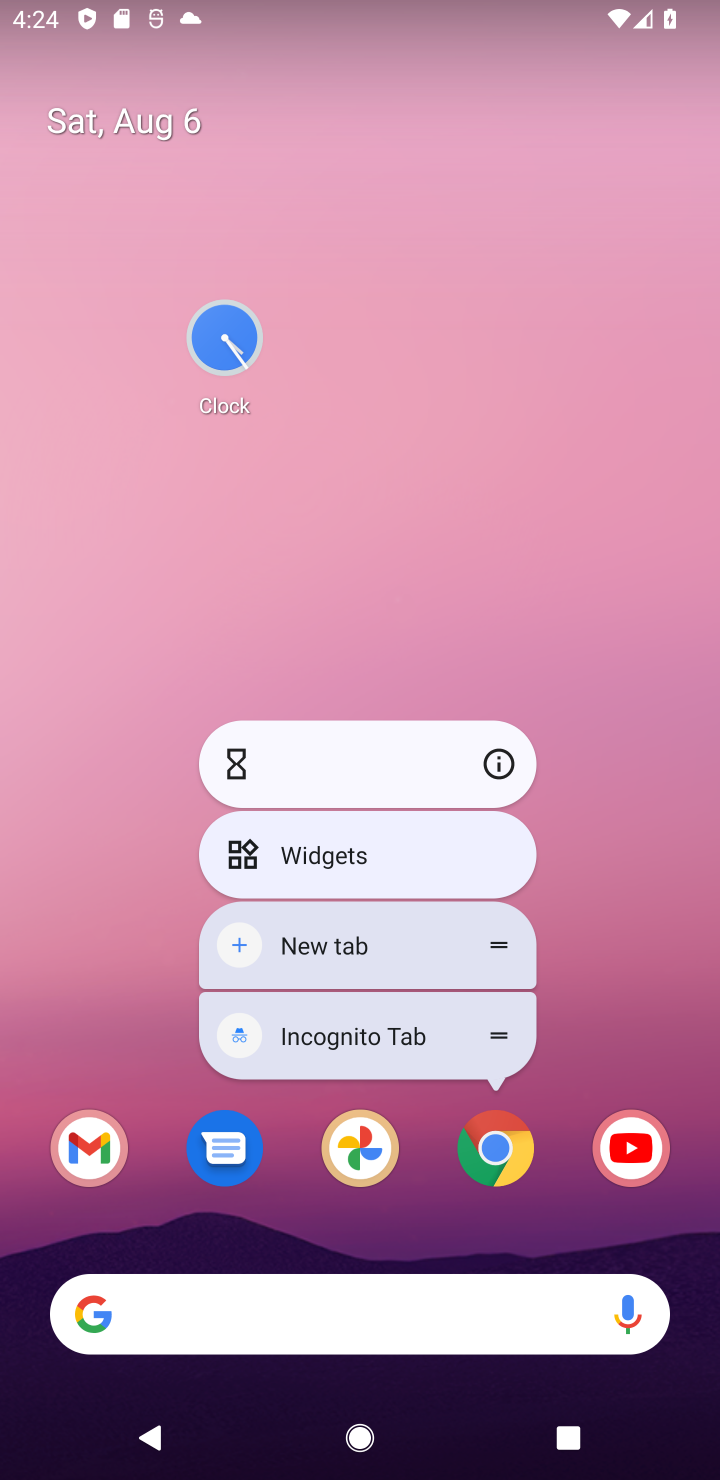
Step 28: click (499, 1146)
Your task to perform on an android device: Open Chrome and go to the settings page Image 29: 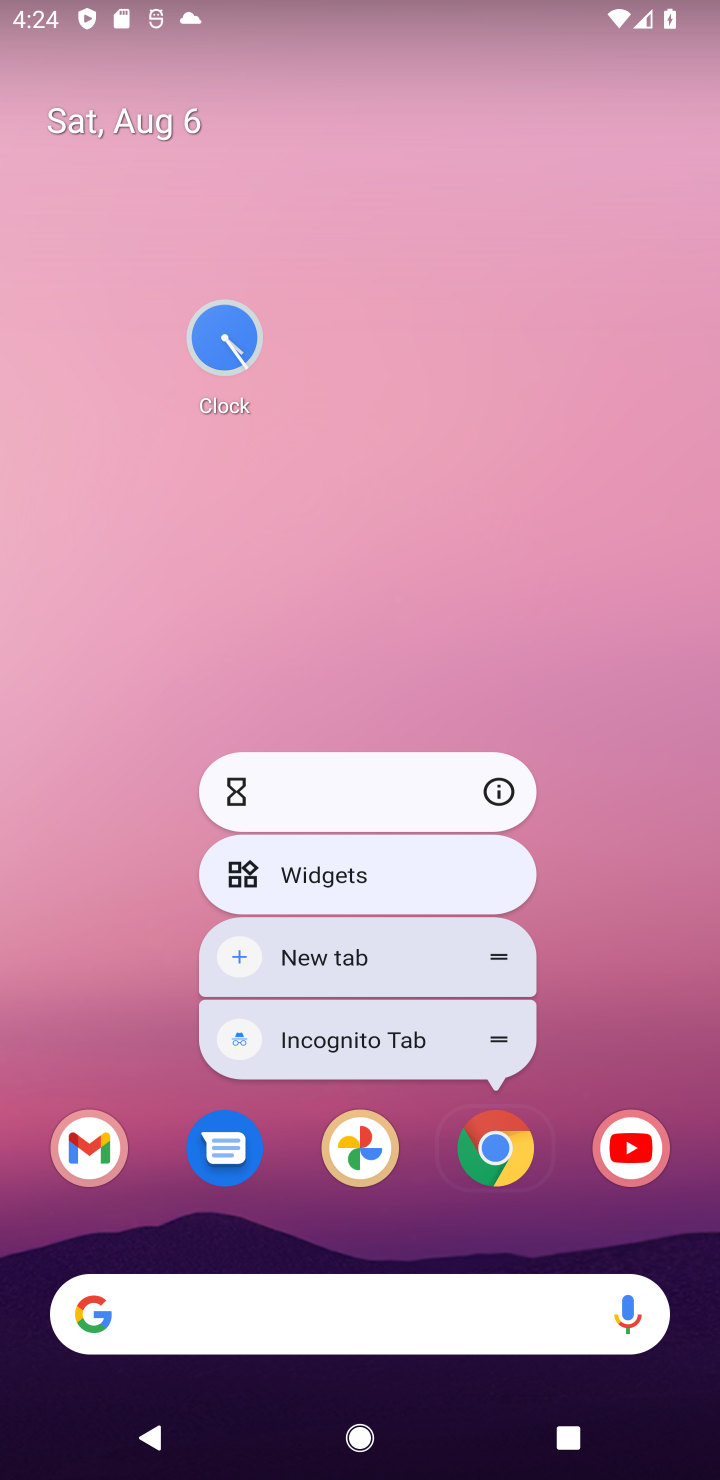
Step 29: click (499, 1146)
Your task to perform on an android device: Open Chrome and go to the settings page Image 30: 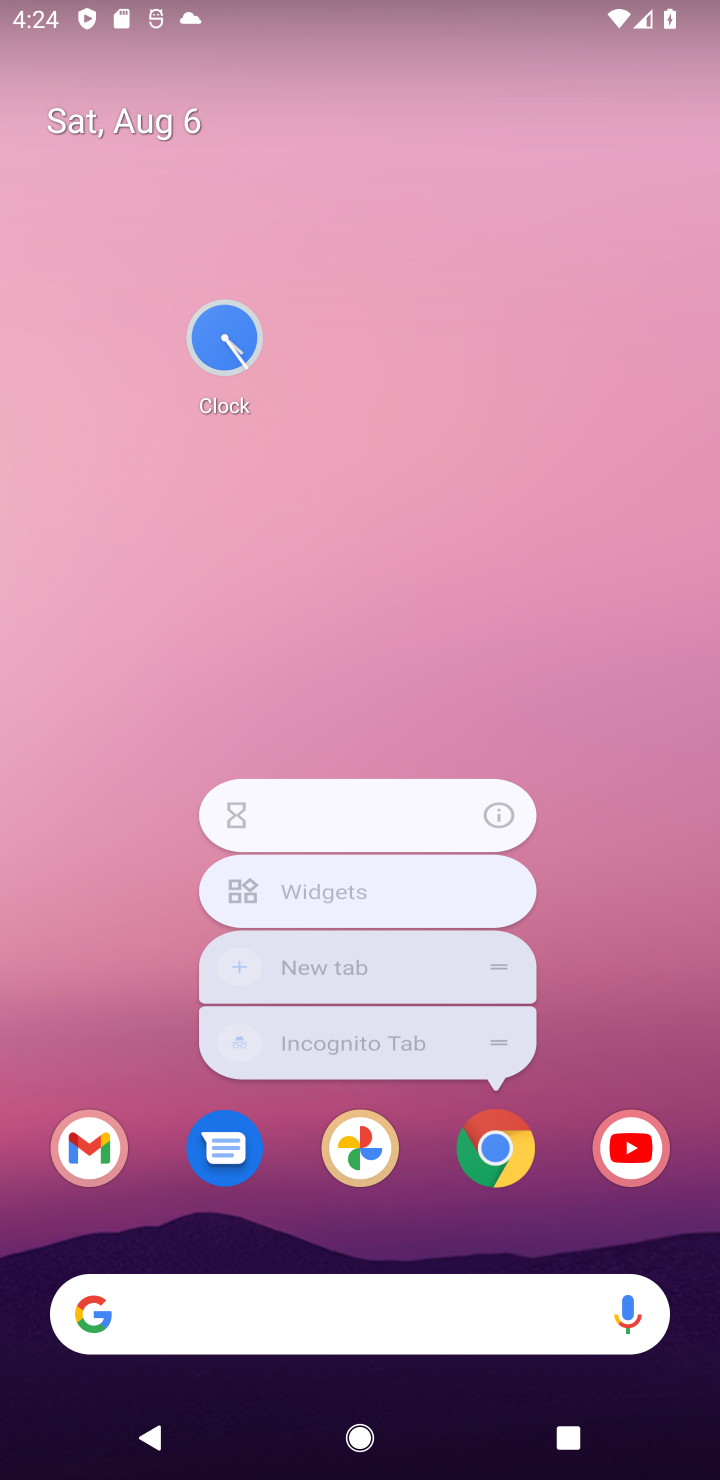
Step 30: click (499, 1146)
Your task to perform on an android device: Open Chrome and go to the settings page Image 31: 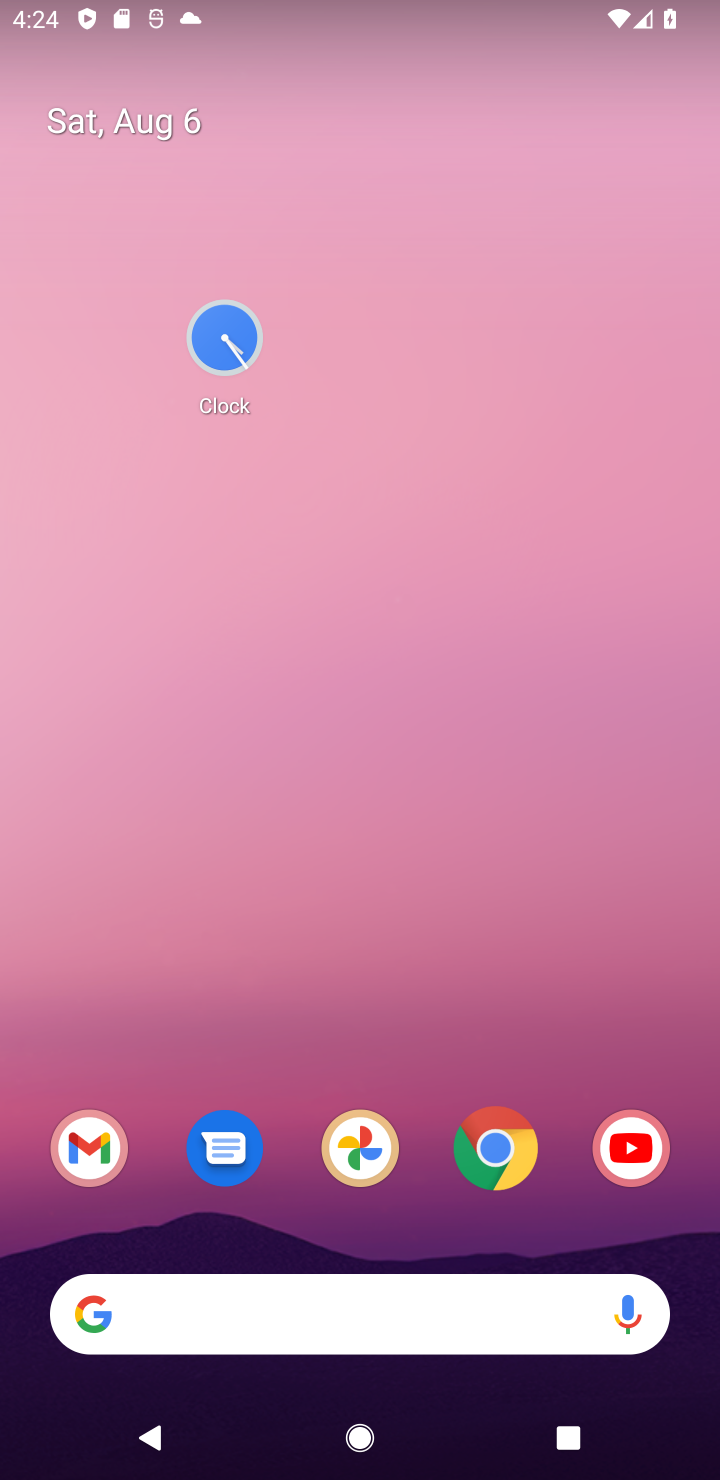
Step 31: click (499, 1146)
Your task to perform on an android device: Open Chrome and go to the settings page Image 32: 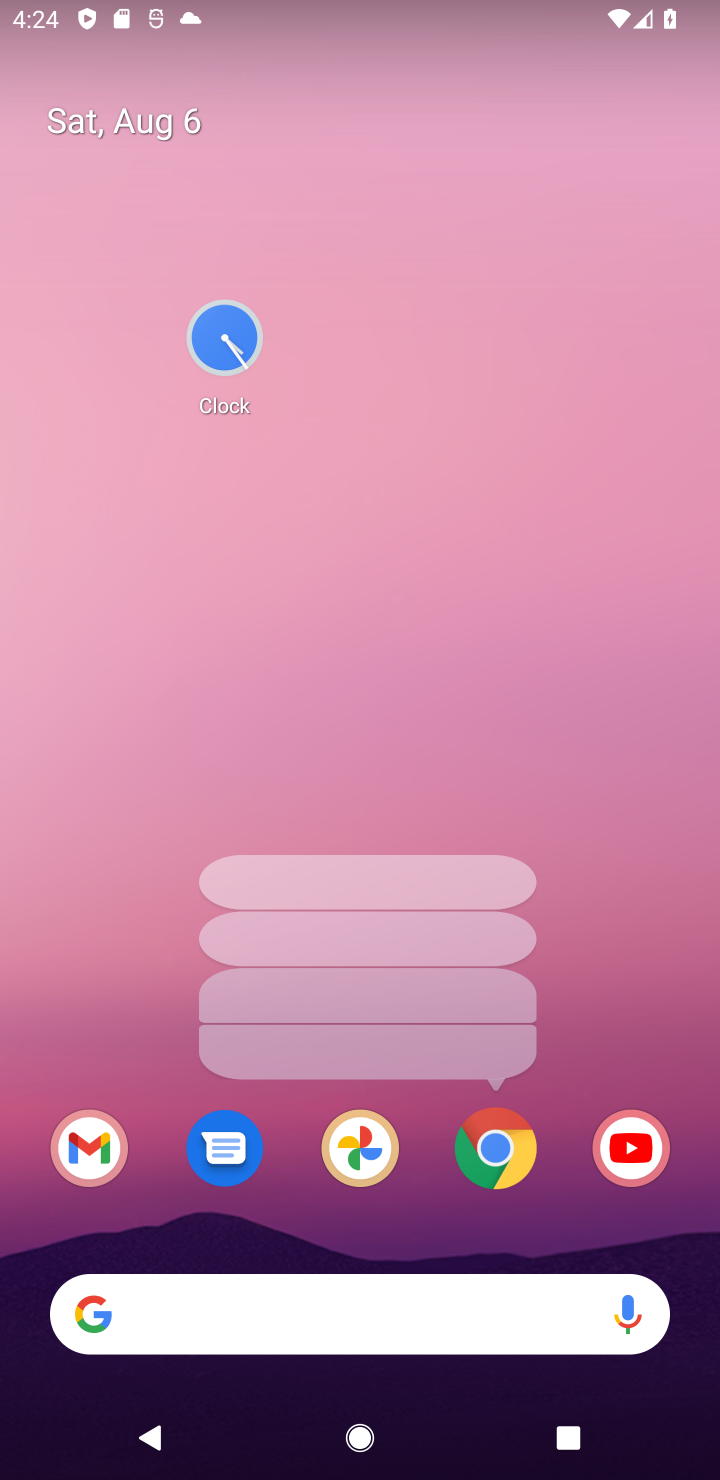
Step 32: click (499, 1146)
Your task to perform on an android device: Open Chrome and go to the settings page Image 33: 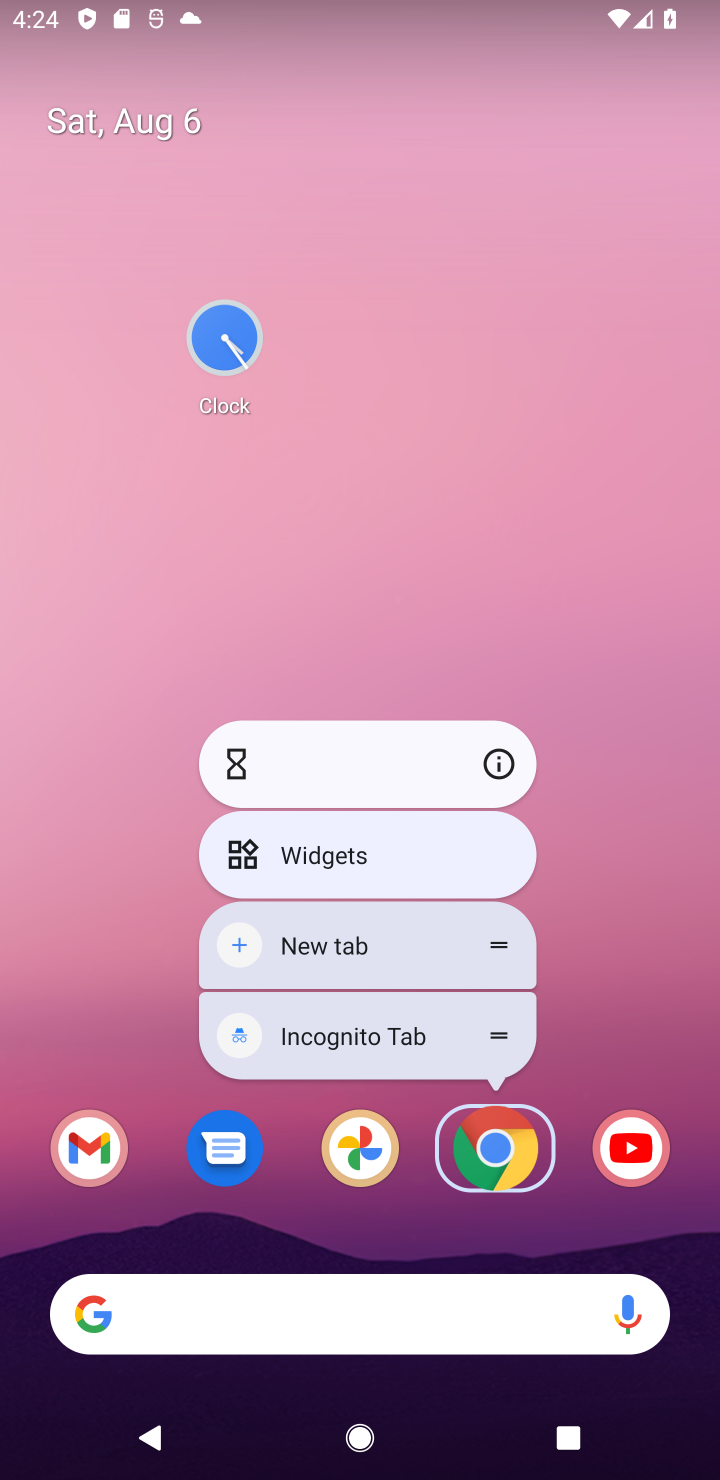
Step 33: click (499, 1146)
Your task to perform on an android device: Open Chrome and go to the settings page Image 34: 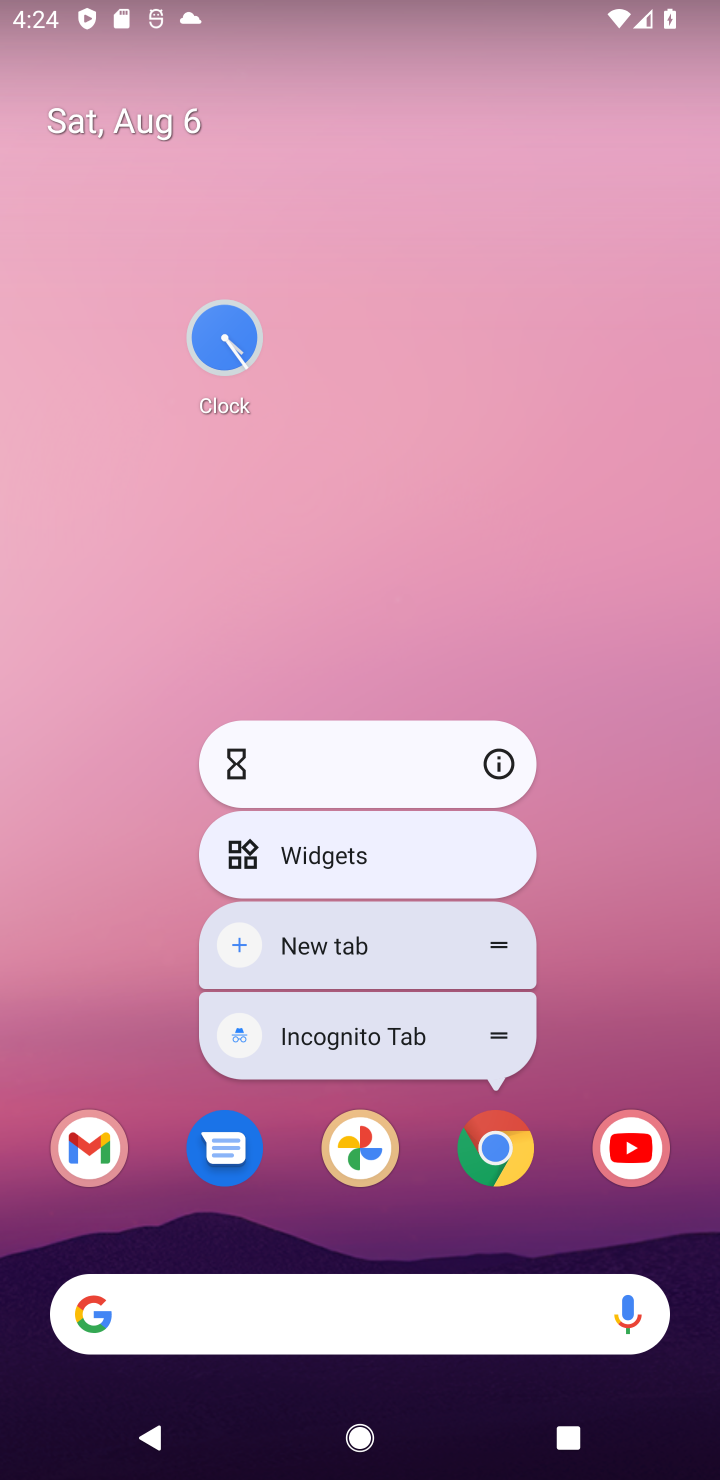
Step 34: click (491, 766)
Your task to perform on an android device: Open Chrome and go to the settings page Image 35: 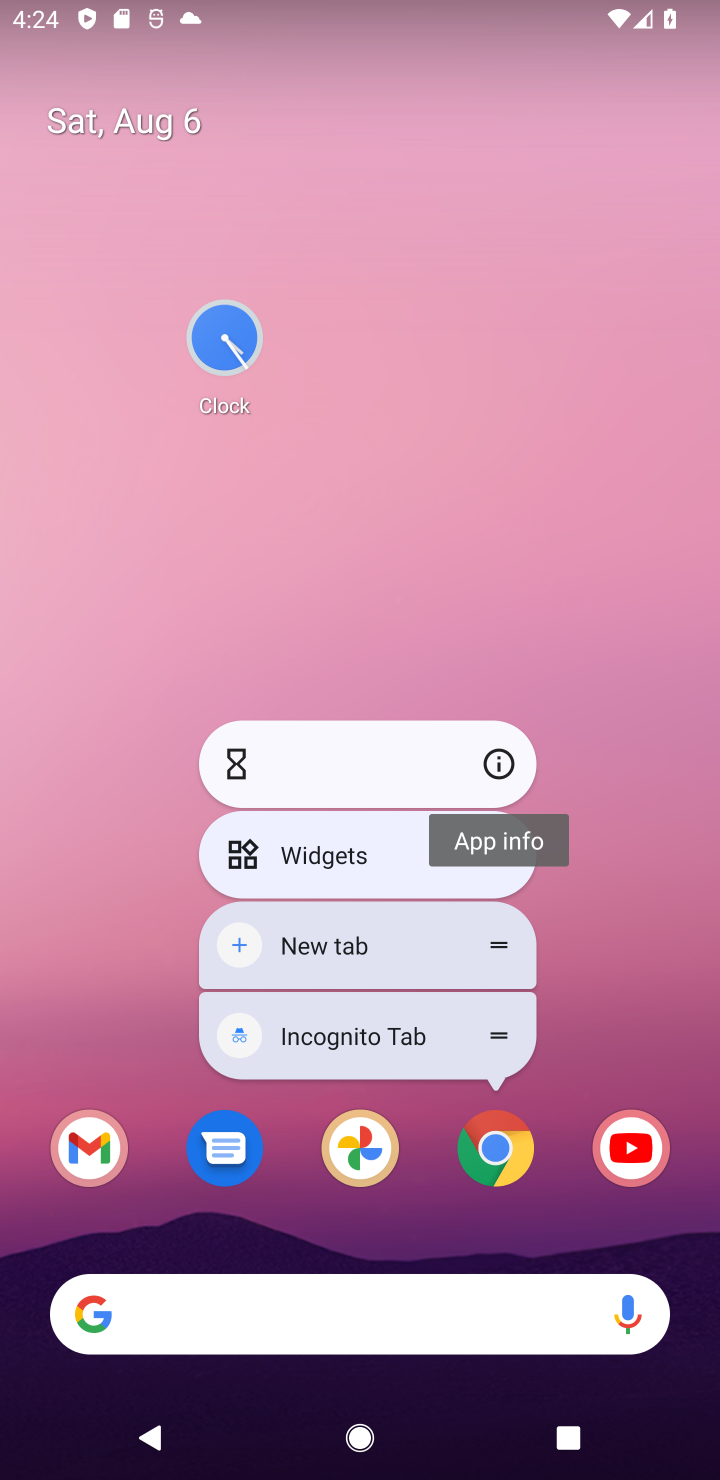
Step 35: click (490, 757)
Your task to perform on an android device: Open Chrome and go to the settings page Image 36: 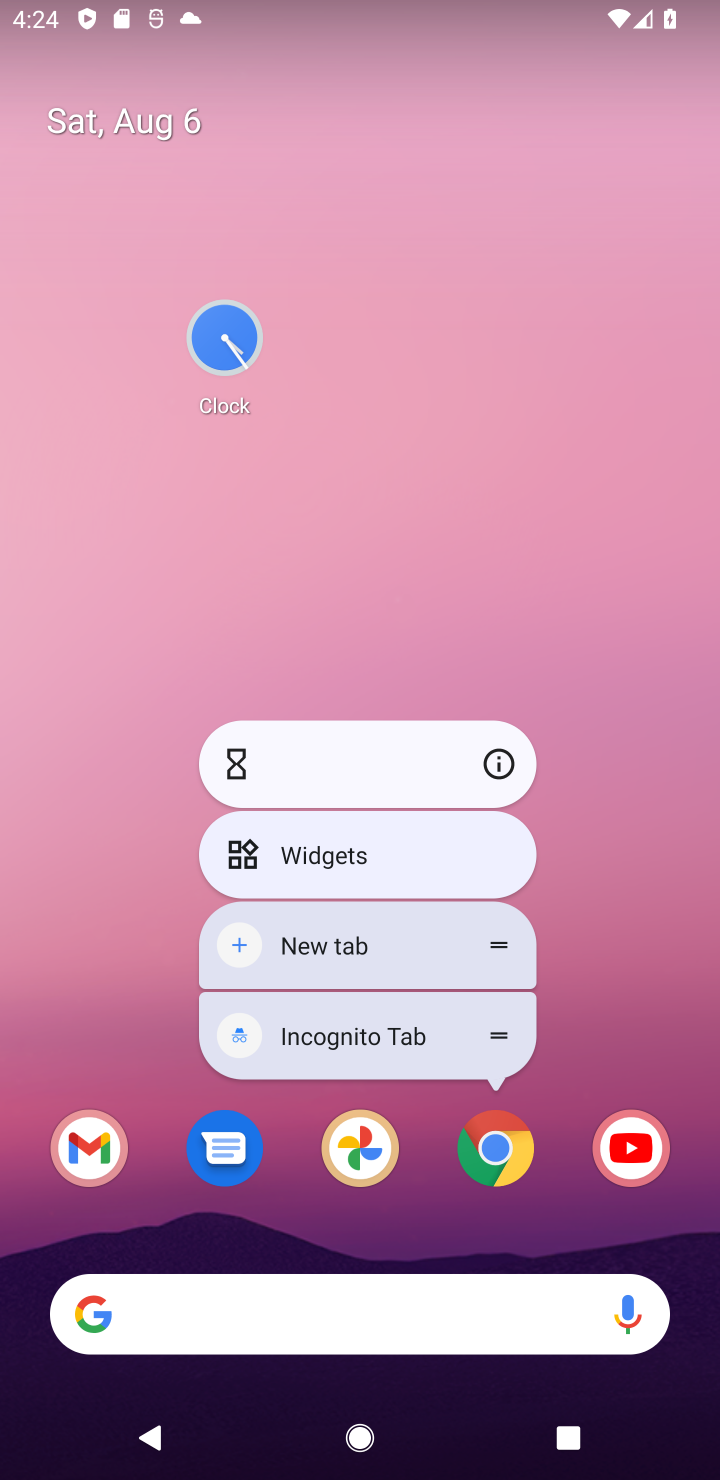
Step 36: click (501, 747)
Your task to perform on an android device: Open Chrome and go to the settings page Image 37: 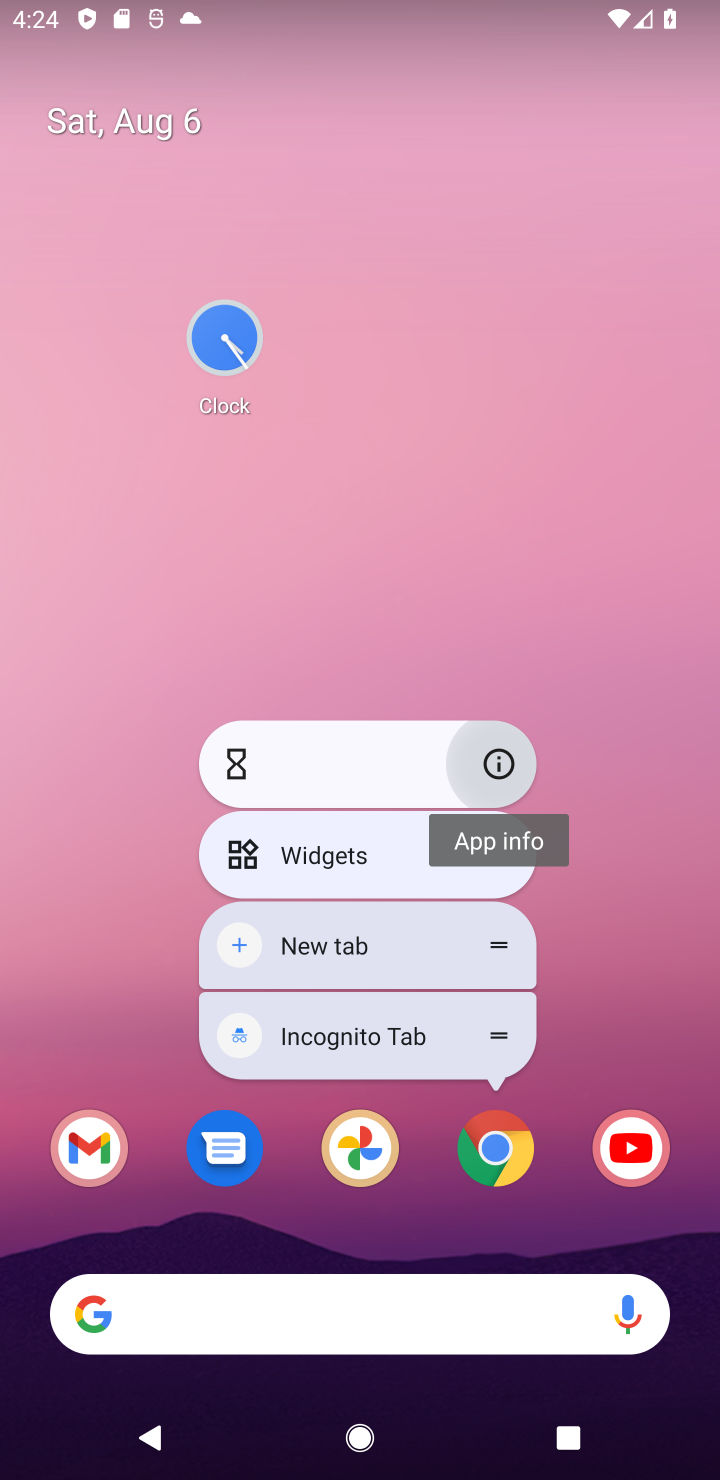
Step 37: click (483, 755)
Your task to perform on an android device: Open Chrome and go to the settings page Image 38: 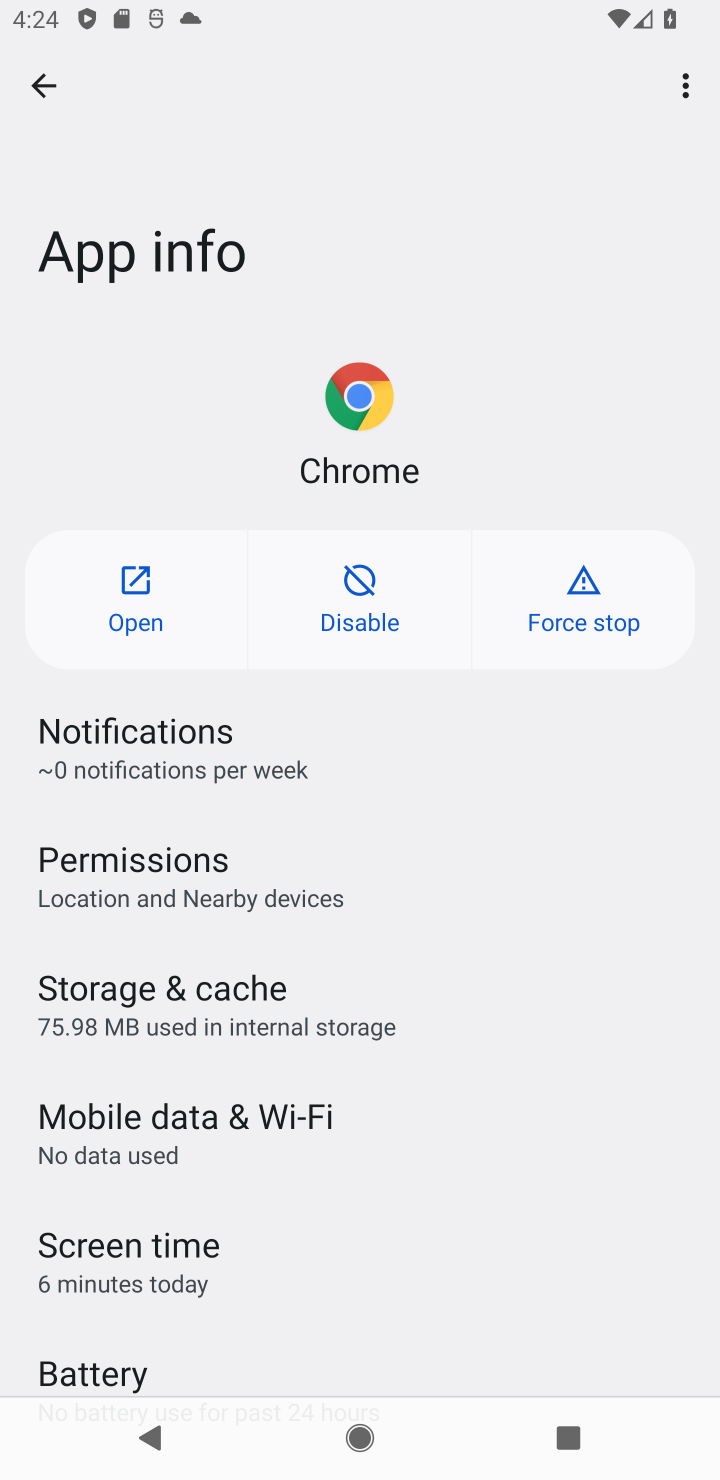
Step 38: click (138, 628)
Your task to perform on an android device: Open Chrome and go to the settings page Image 39: 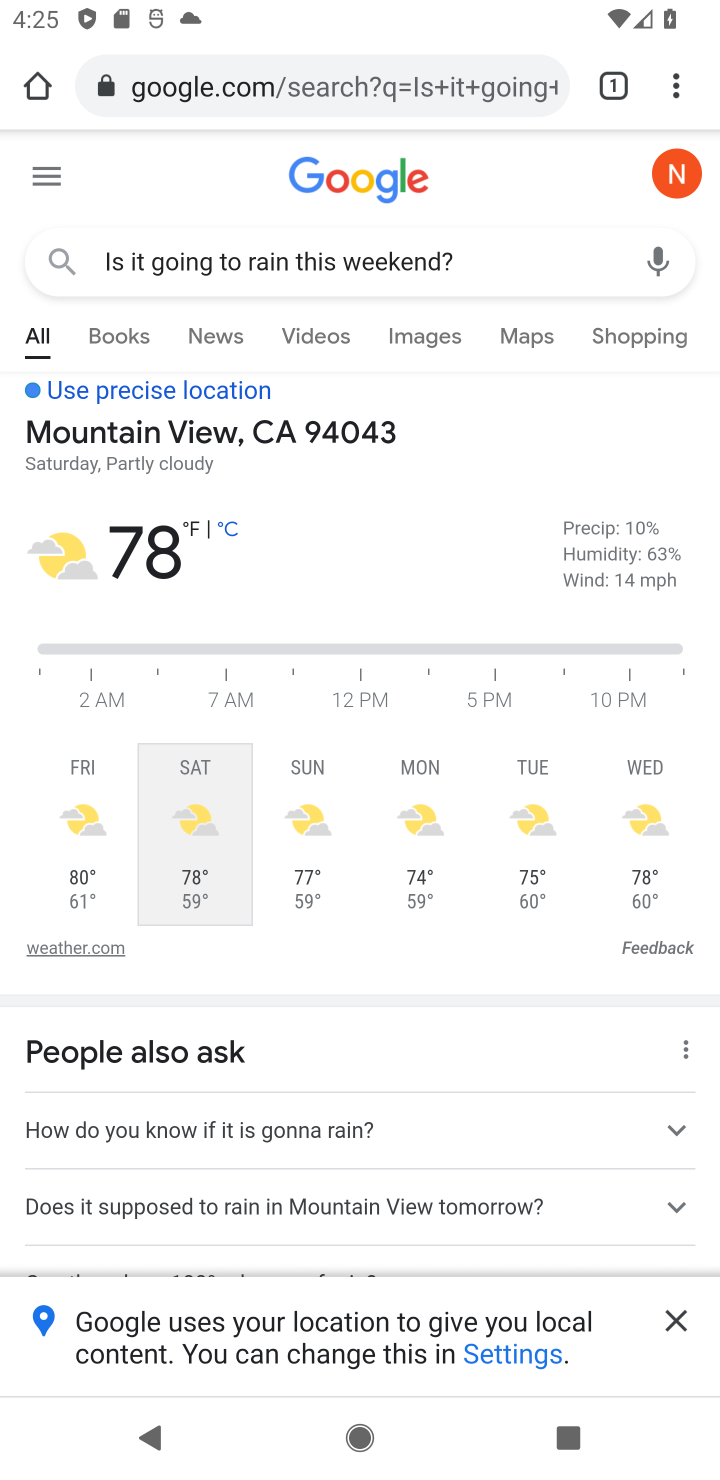
Step 39: drag from (316, 967) to (386, 1264)
Your task to perform on an android device: Open Chrome and go to the settings page Image 40: 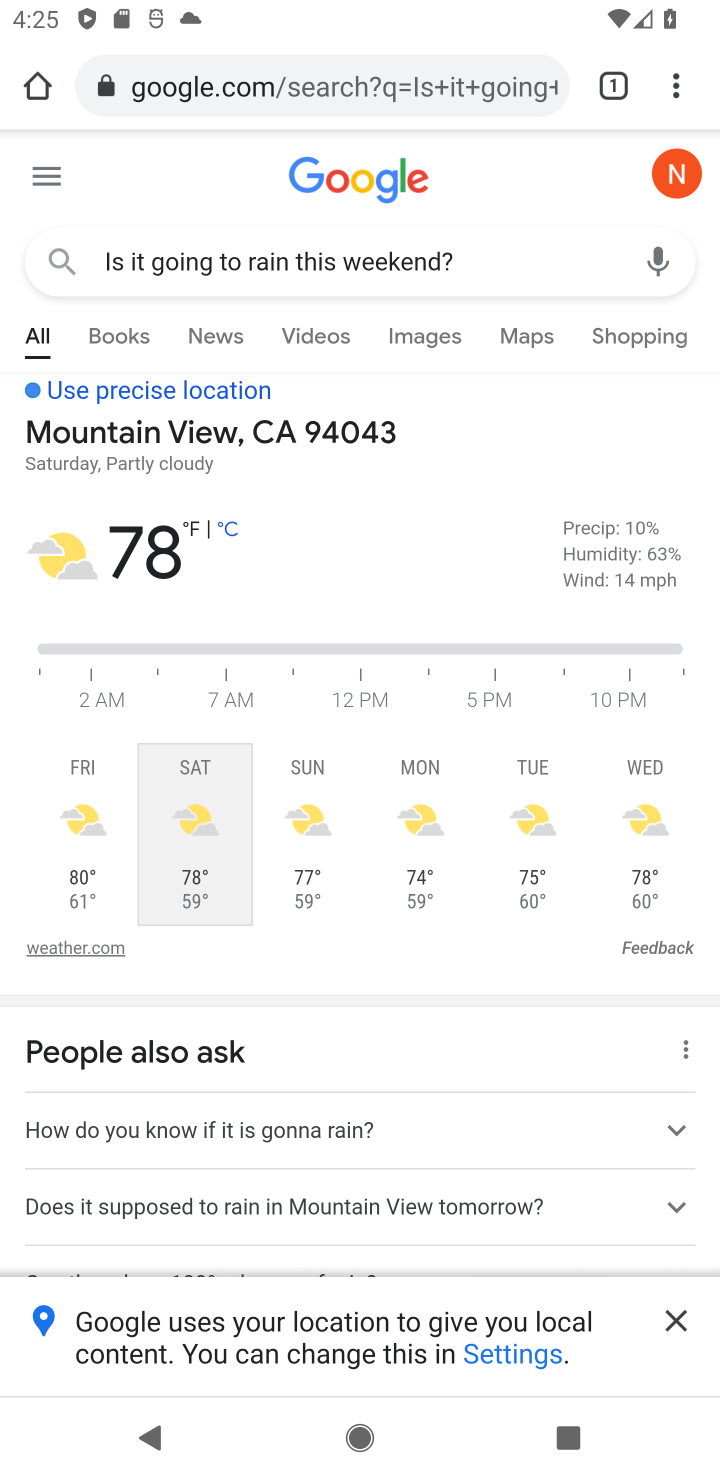
Step 40: drag from (675, 97) to (437, 1147)
Your task to perform on an android device: Open Chrome and go to the settings page Image 41: 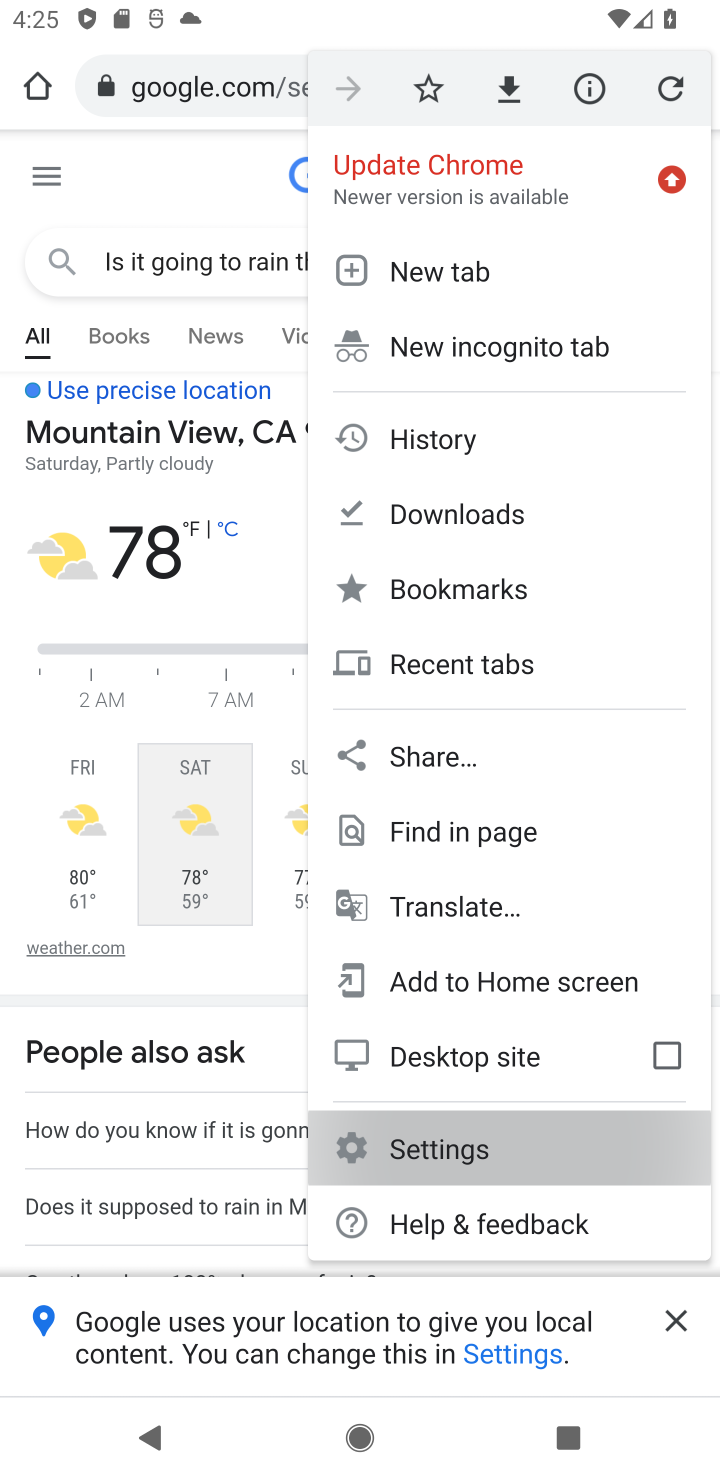
Step 41: click (437, 1147)
Your task to perform on an android device: Open Chrome and go to the settings page Image 42: 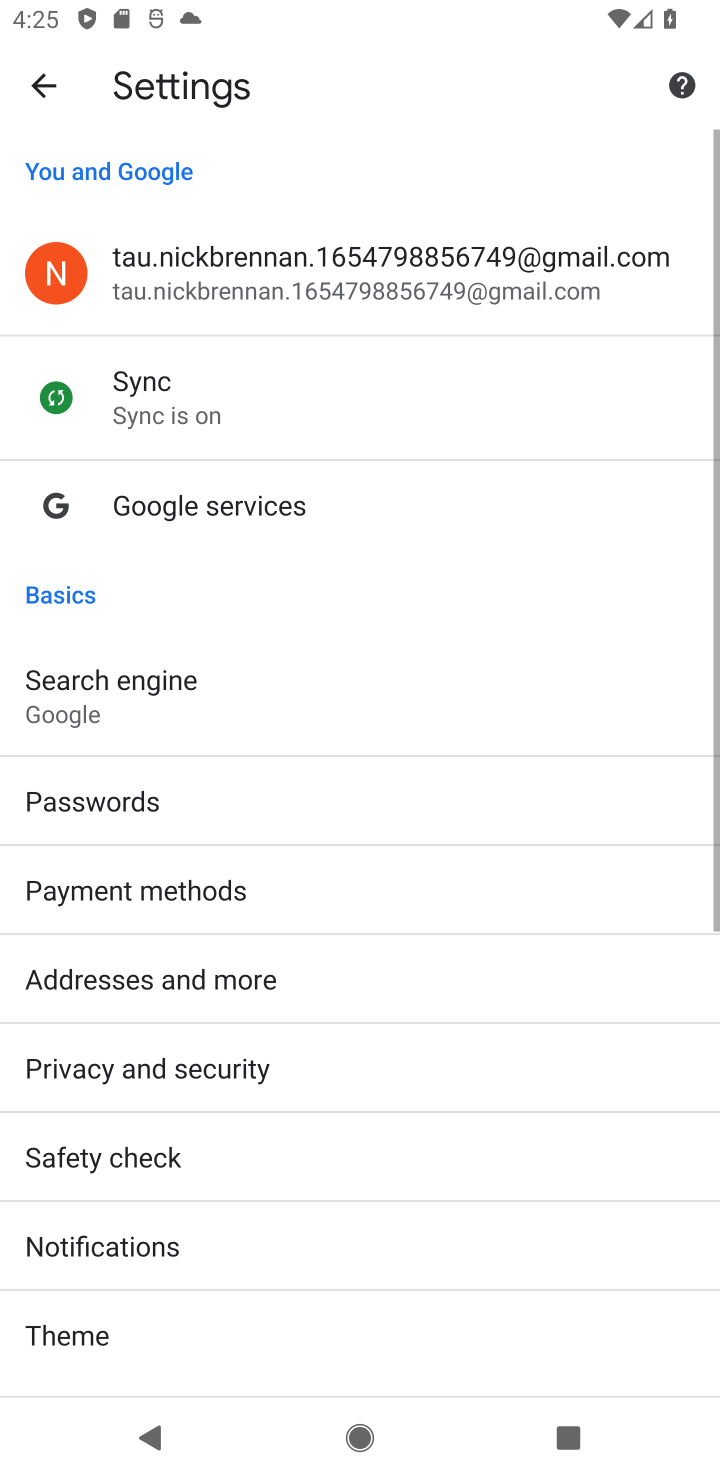
Step 42: task complete